Your task to perform on an android device: make emails show in primary in the gmail app Image 0: 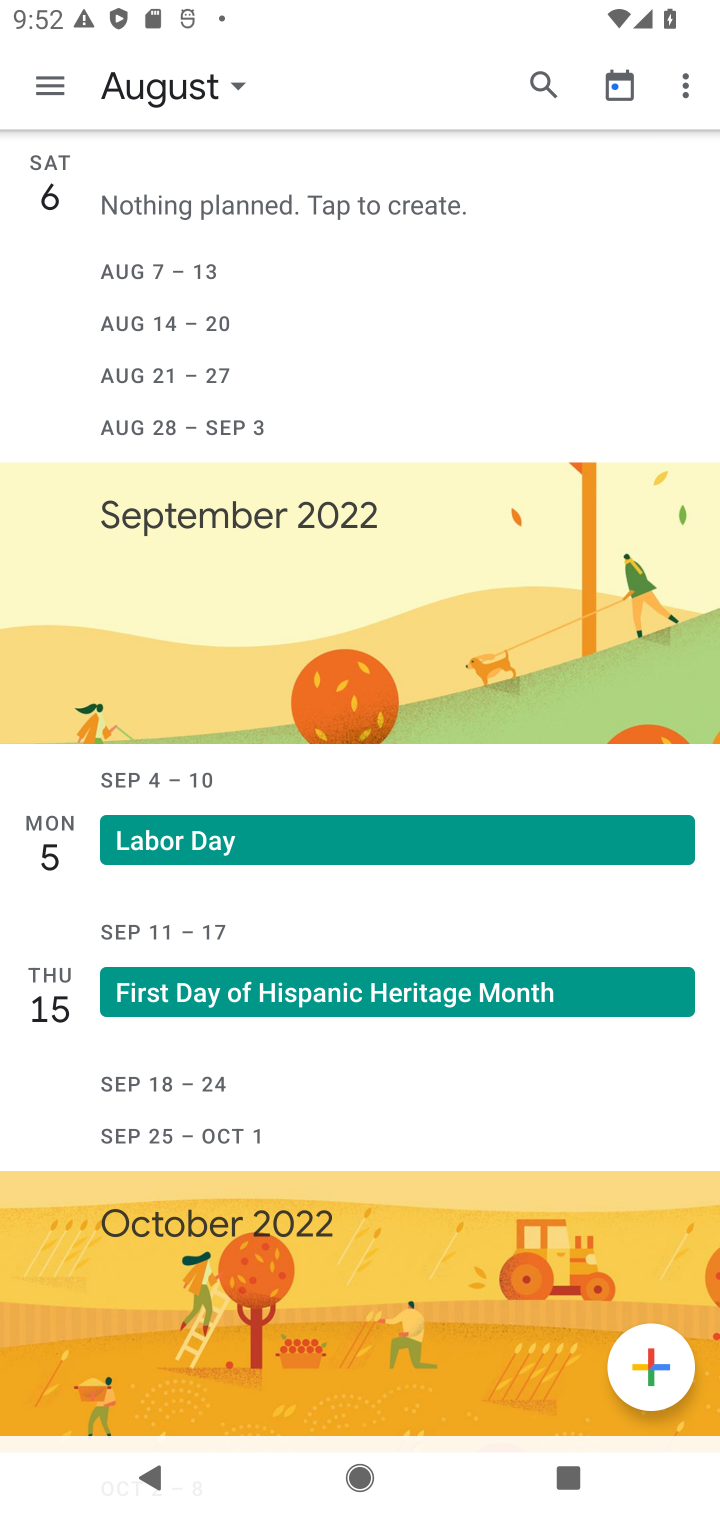
Step 0: drag from (365, 1190) to (403, 259)
Your task to perform on an android device: make emails show in primary in the gmail app Image 1: 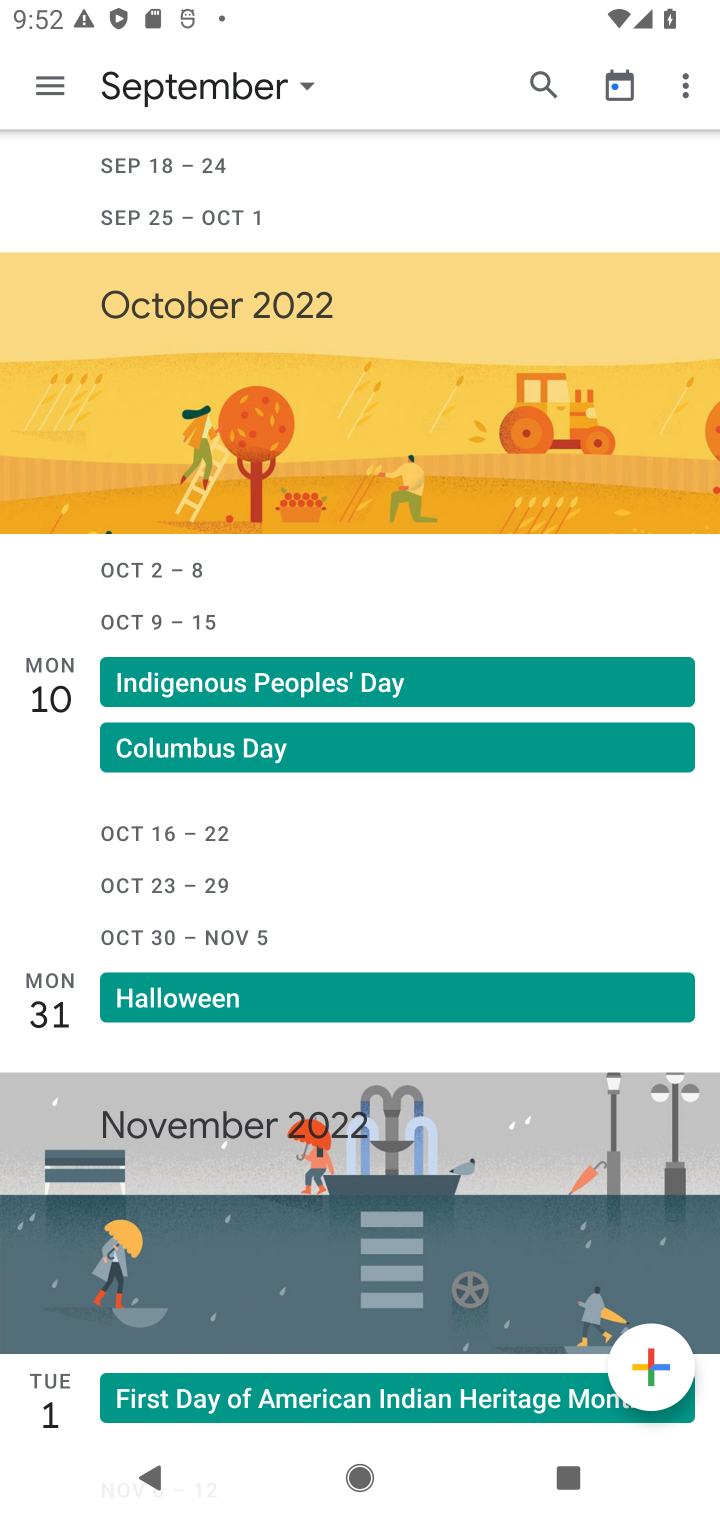
Step 1: press home button
Your task to perform on an android device: make emails show in primary in the gmail app Image 2: 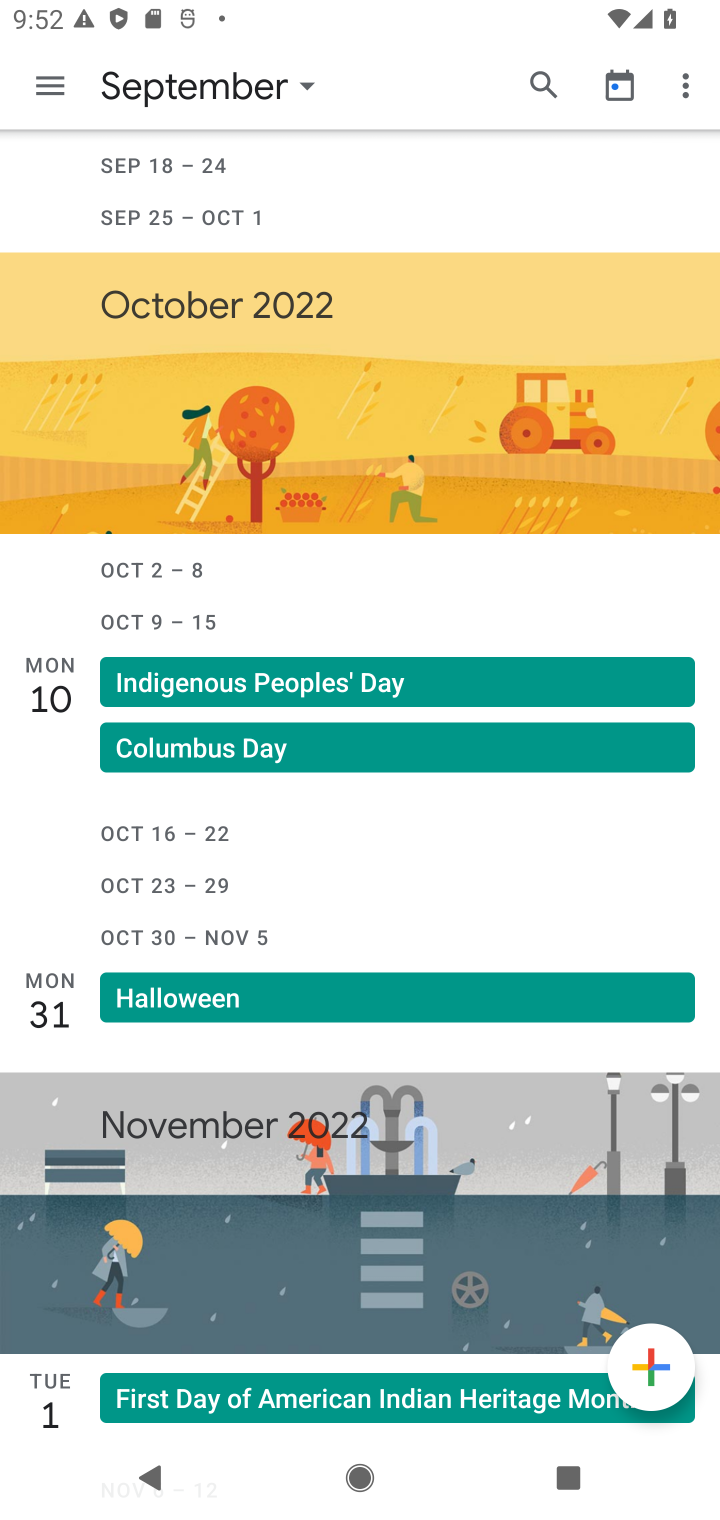
Step 2: drag from (269, 1185) to (443, 155)
Your task to perform on an android device: make emails show in primary in the gmail app Image 3: 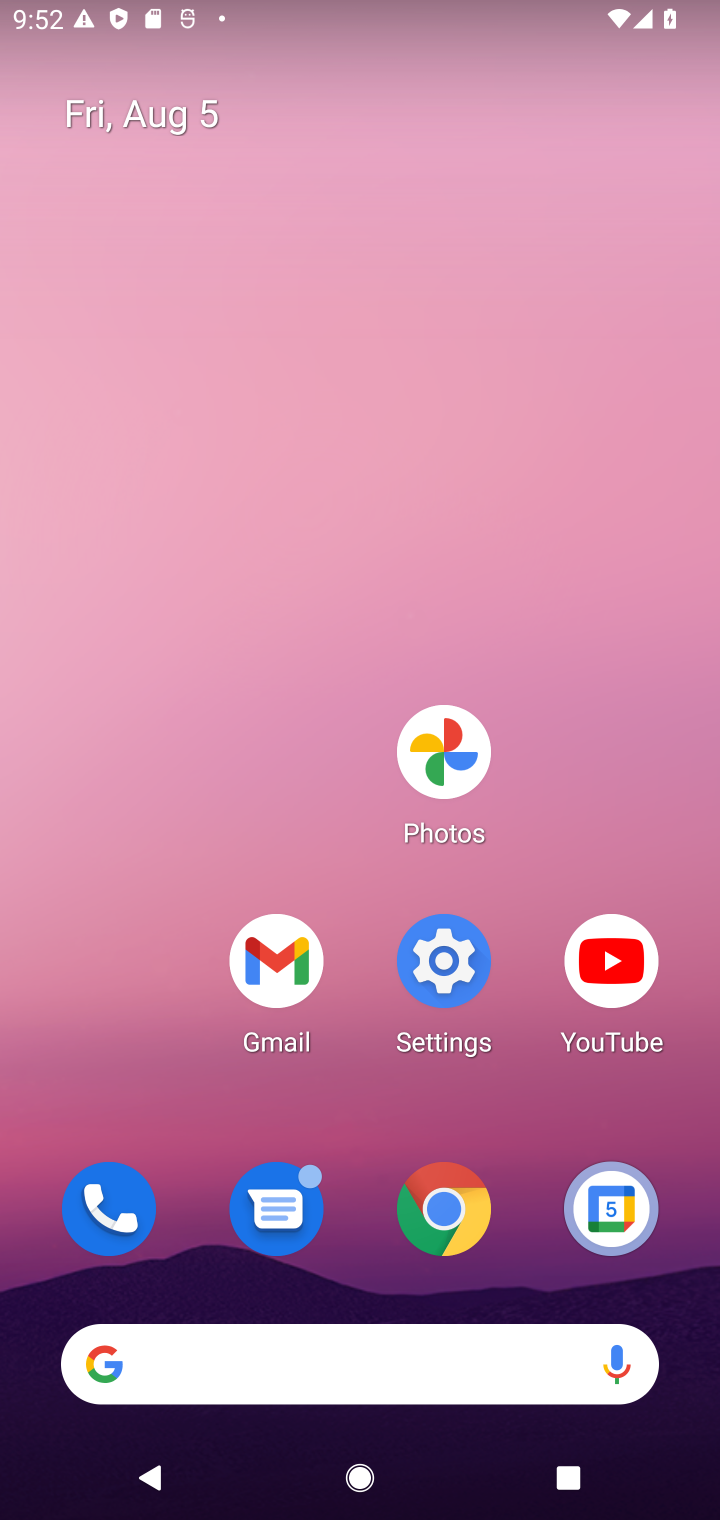
Step 3: drag from (377, 1086) to (372, 284)
Your task to perform on an android device: make emails show in primary in the gmail app Image 4: 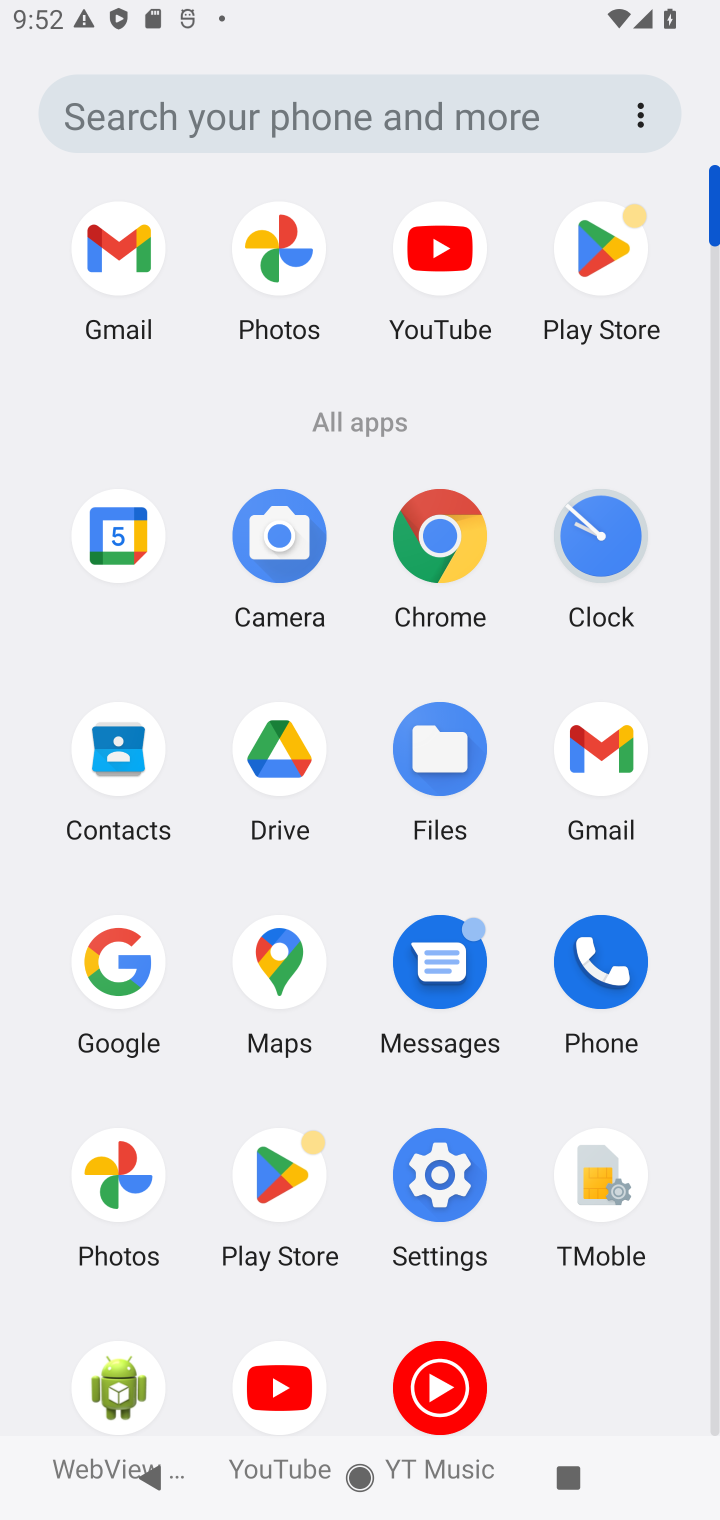
Step 4: click (582, 749)
Your task to perform on an android device: make emails show in primary in the gmail app Image 5: 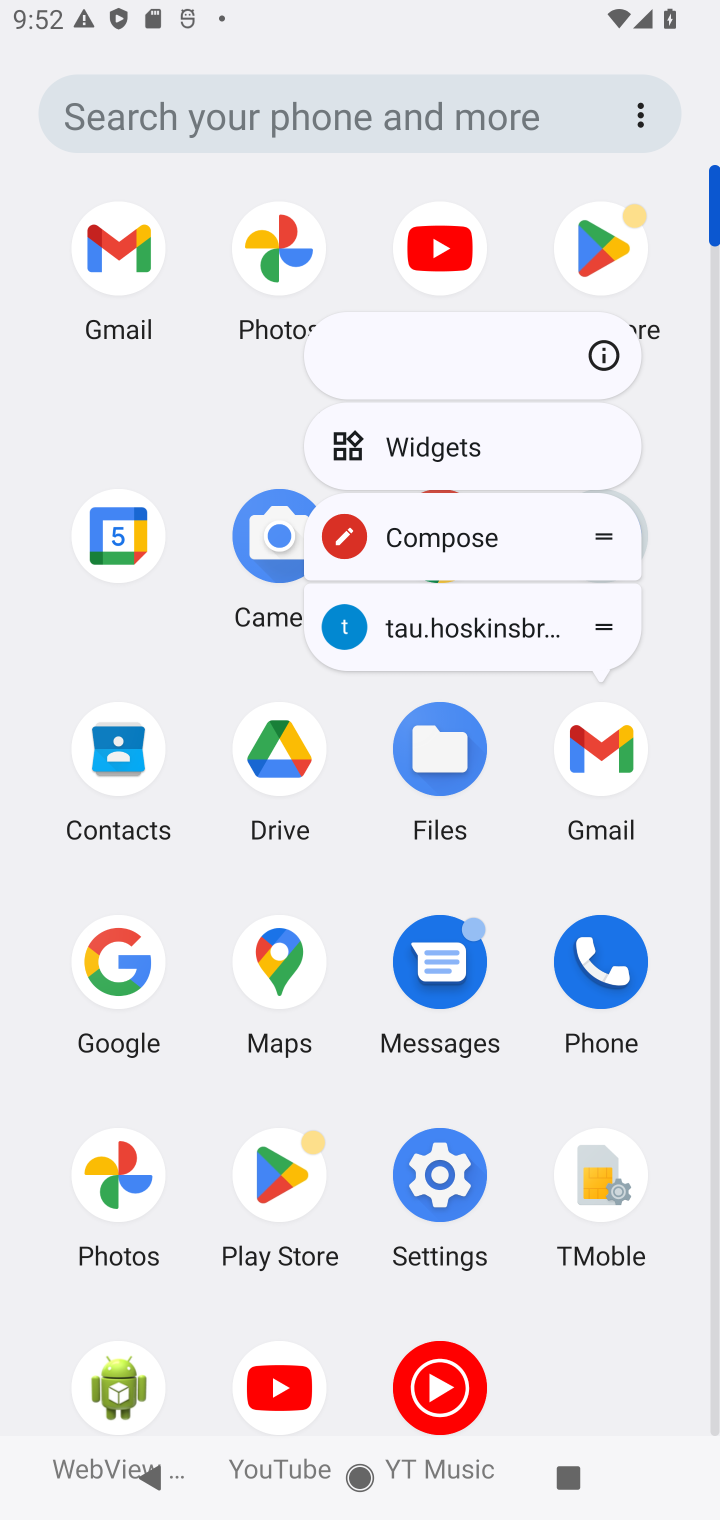
Step 5: click (593, 352)
Your task to perform on an android device: make emails show in primary in the gmail app Image 6: 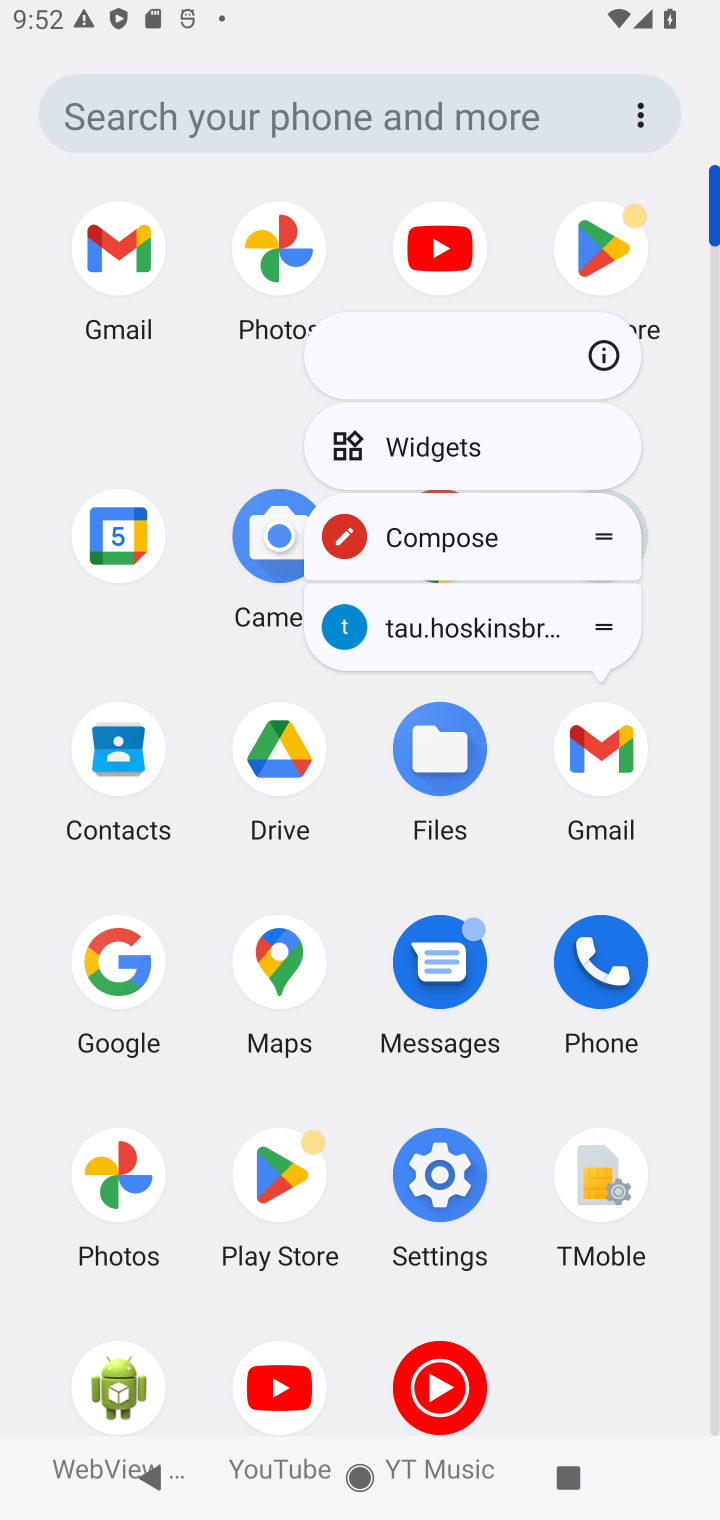
Step 6: click (592, 350)
Your task to perform on an android device: make emails show in primary in the gmail app Image 7: 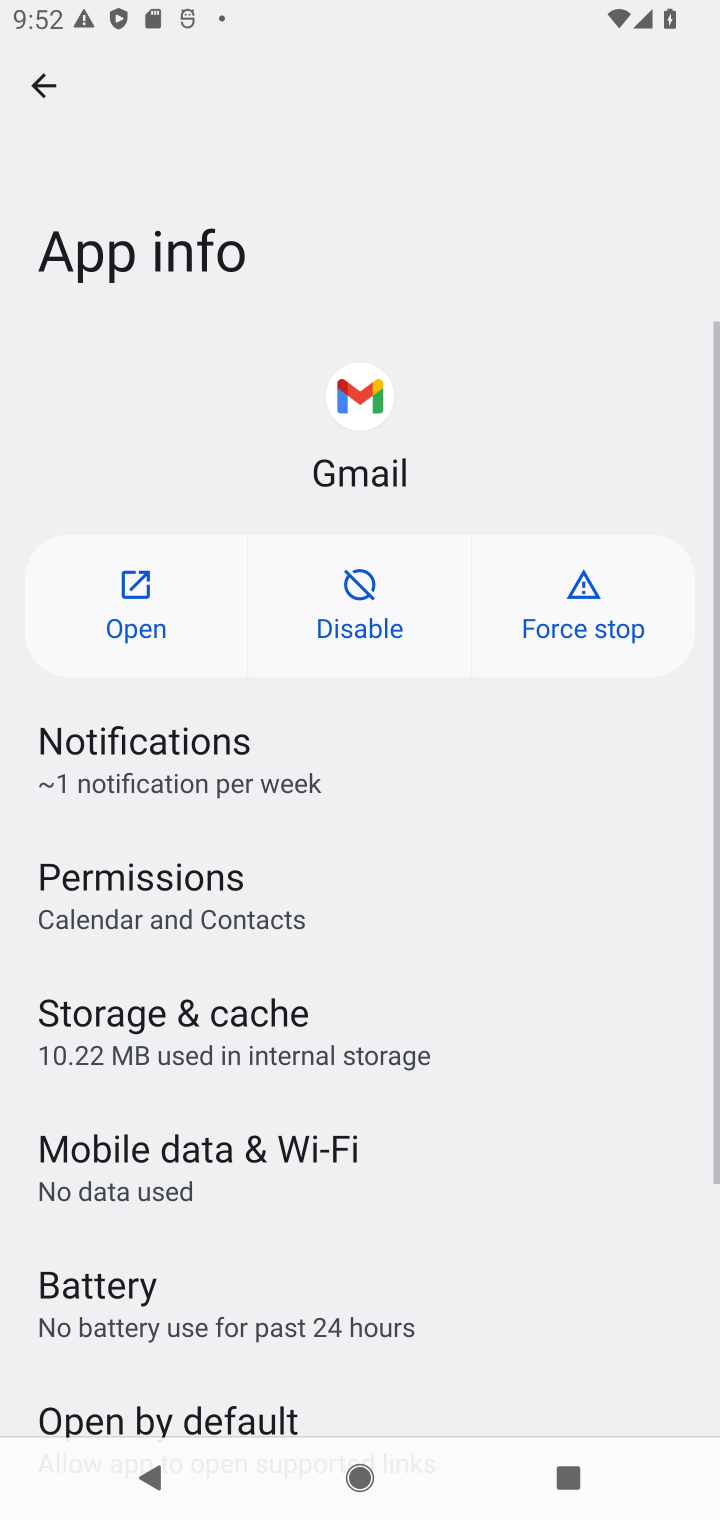
Step 7: click (124, 603)
Your task to perform on an android device: make emails show in primary in the gmail app Image 8: 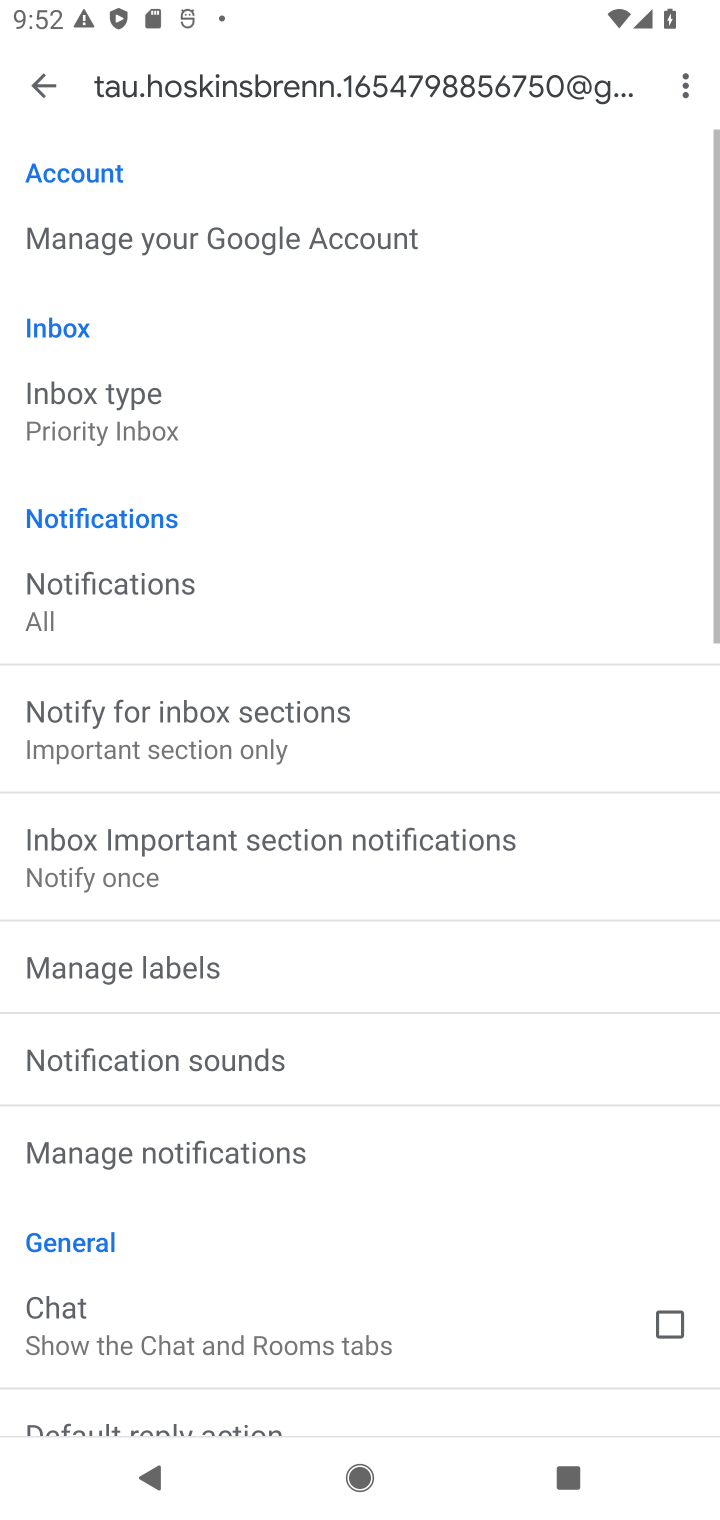
Step 8: drag from (332, 1245) to (430, 591)
Your task to perform on an android device: make emails show in primary in the gmail app Image 9: 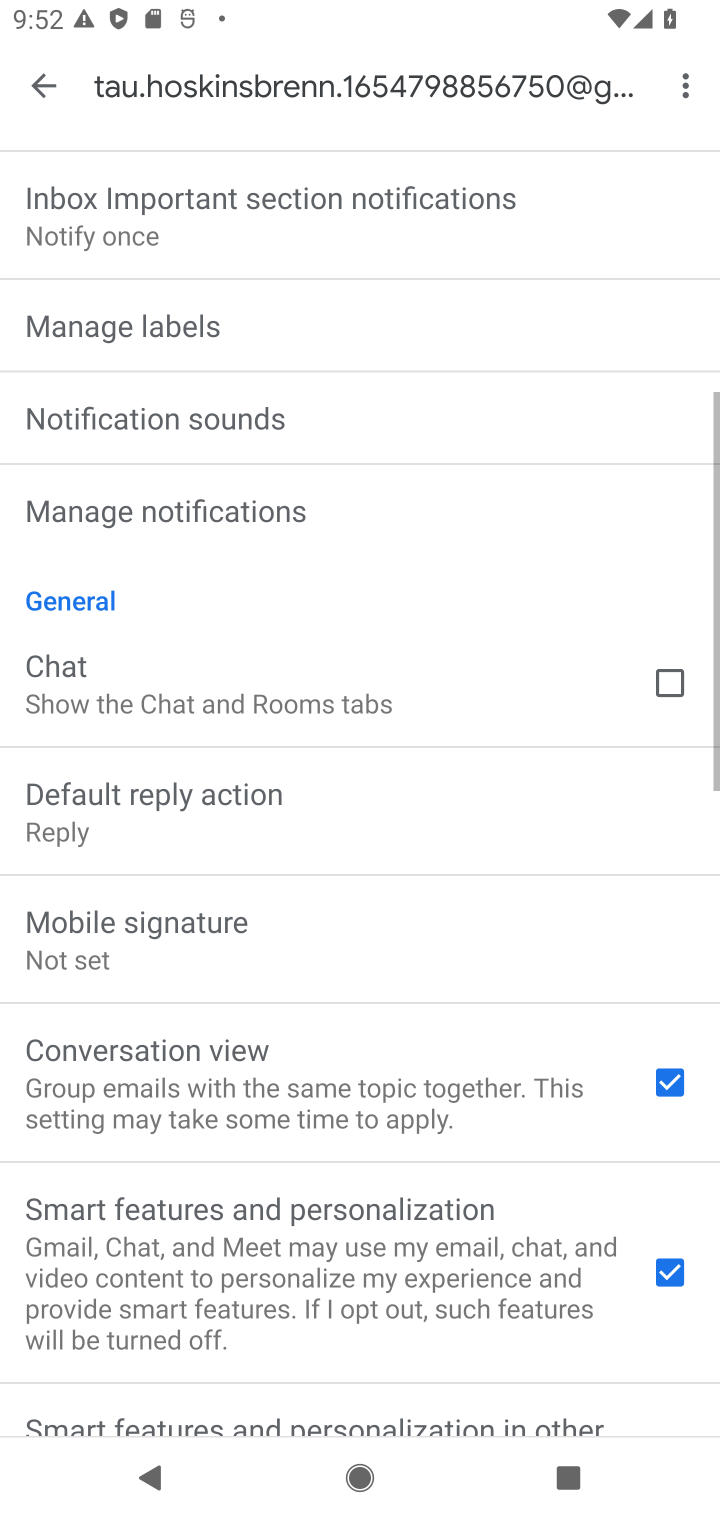
Step 9: drag from (402, 454) to (388, 1435)
Your task to perform on an android device: make emails show in primary in the gmail app Image 10: 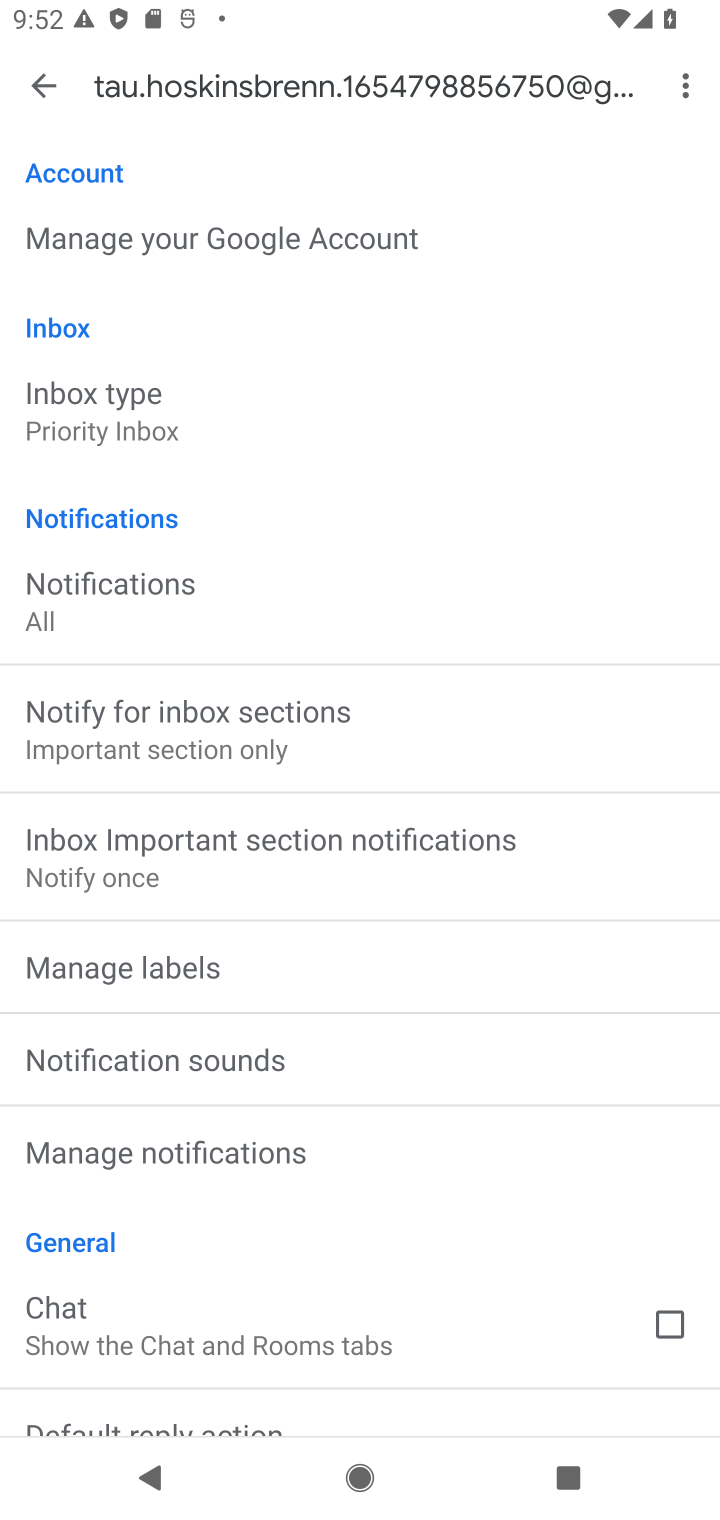
Step 10: drag from (204, 1280) to (537, 1511)
Your task to perform on an android device: make emails show in primary in the gmail app Image 11: 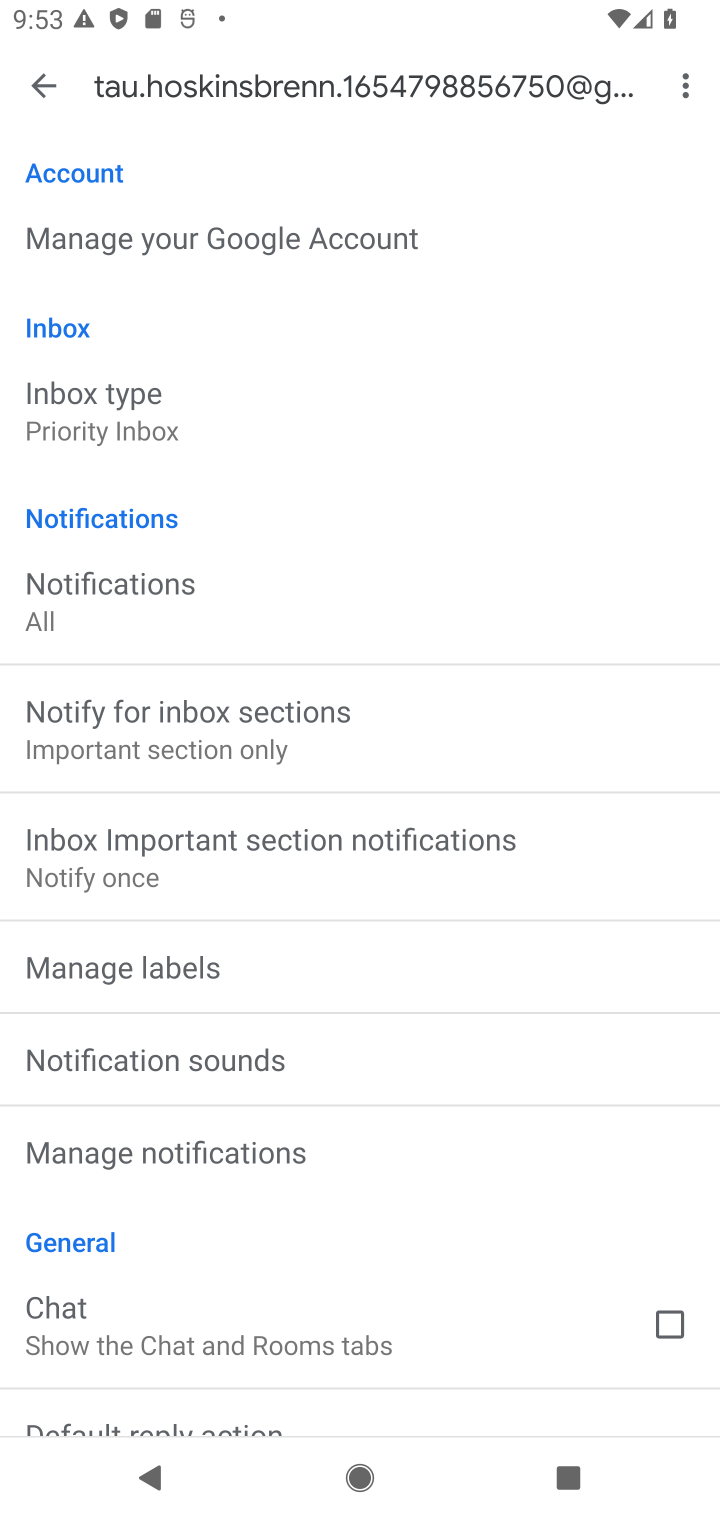
Step 11: click (41, 82)
Your task to perform on an android device: make emails show in primary in the gmail app Image 12: 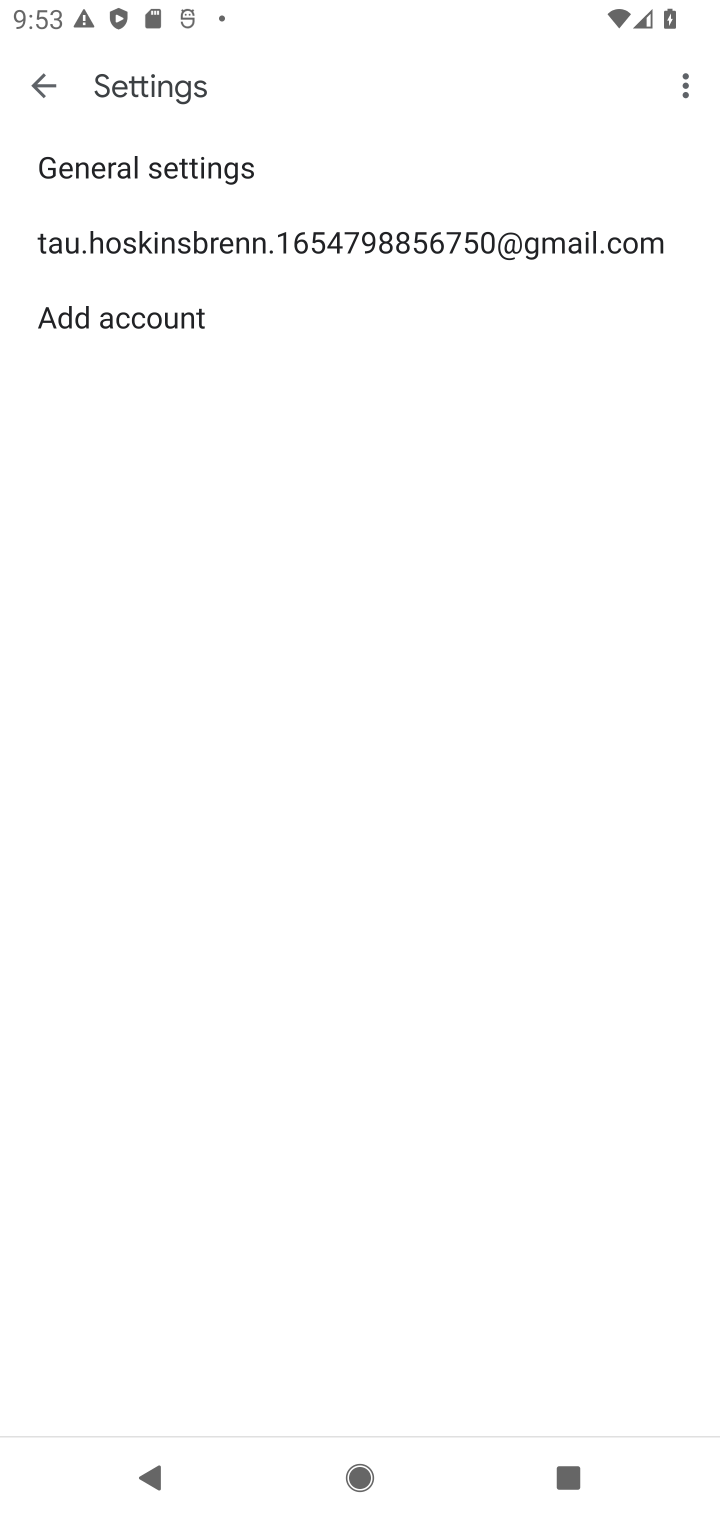
Step 12: click (47, 80)
Your task to perform on an android device: make emails show in primary in the gmail app Image 13: 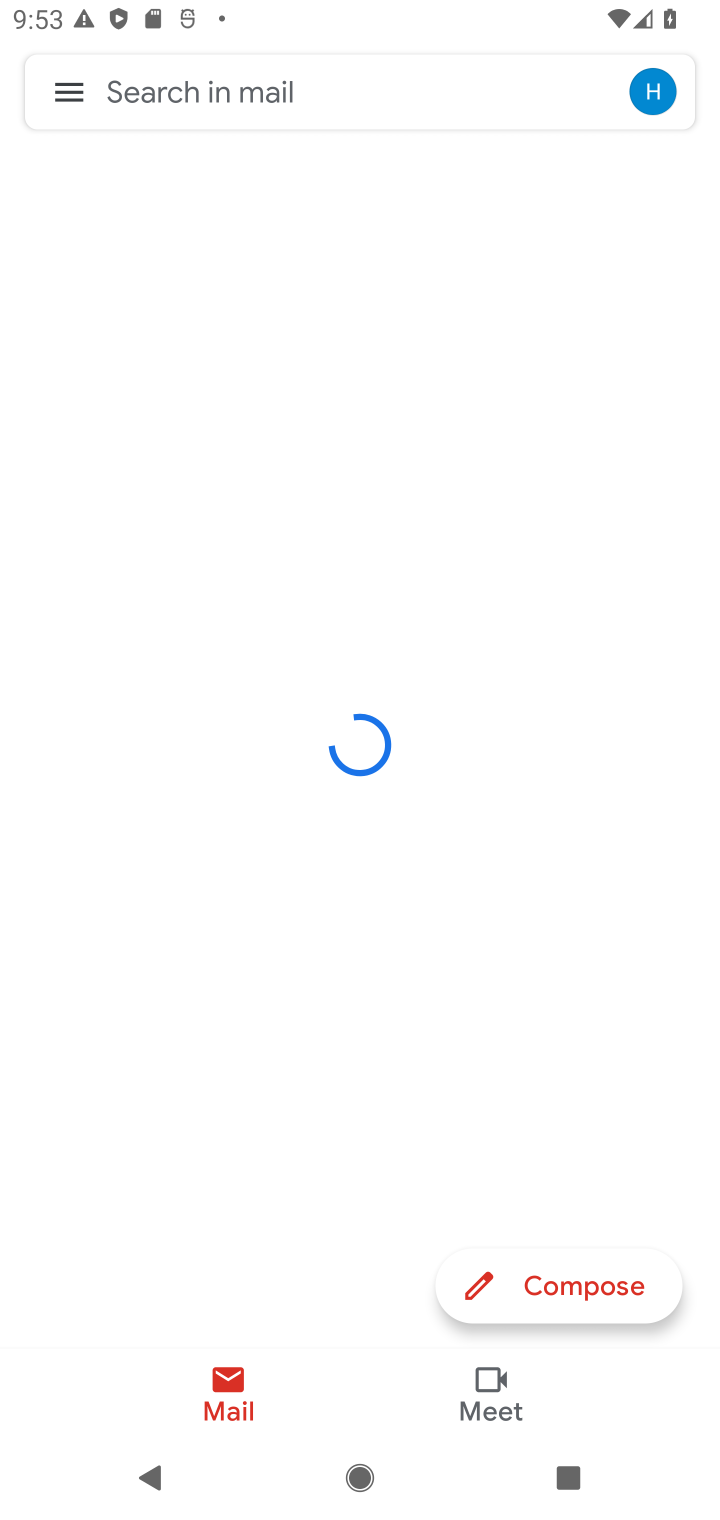
Step 13: click (84, 90)
Your task to perform on an android device: make emails show in primary in the gmail app Image 14: 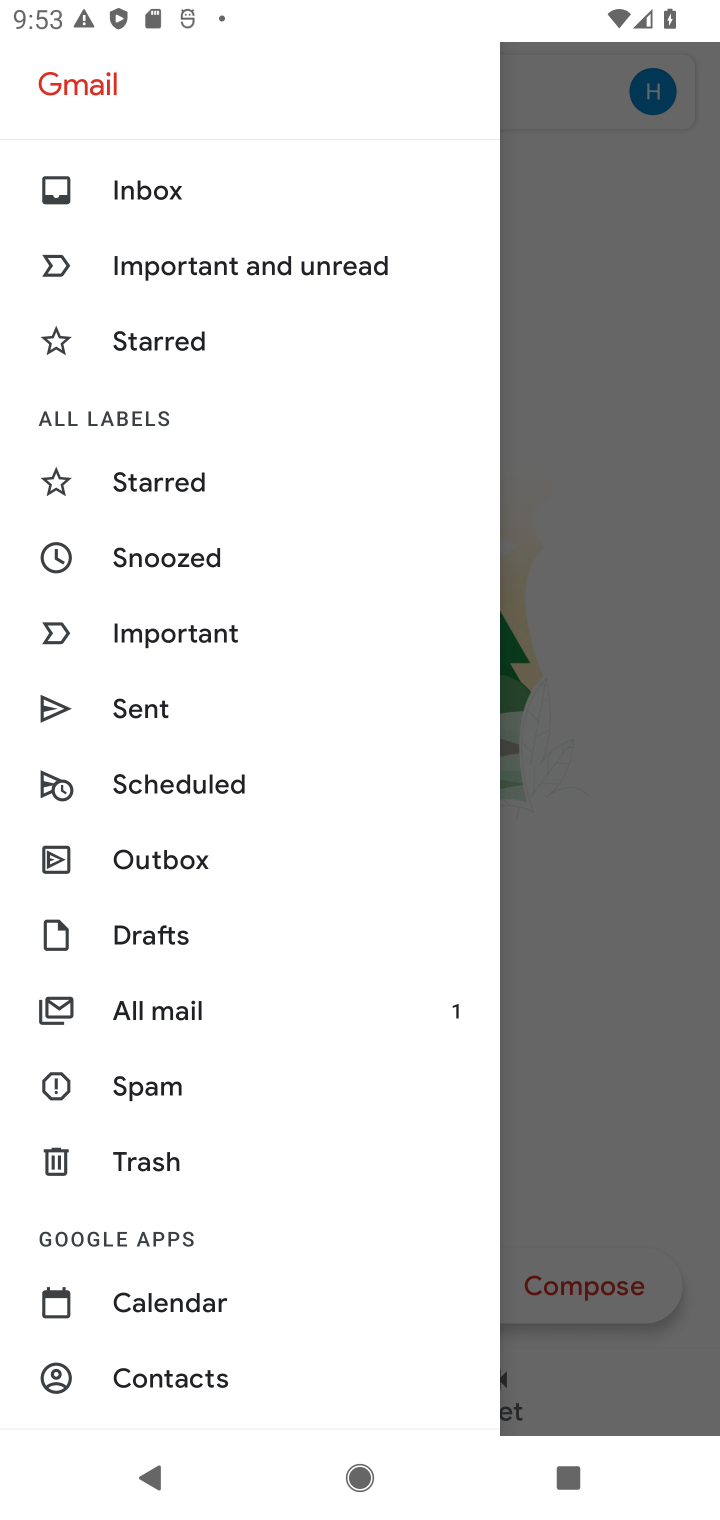
Step 14: click (152, 192)
Your task to perform on an android device: make emails show in primary in the gmail app Image 15: 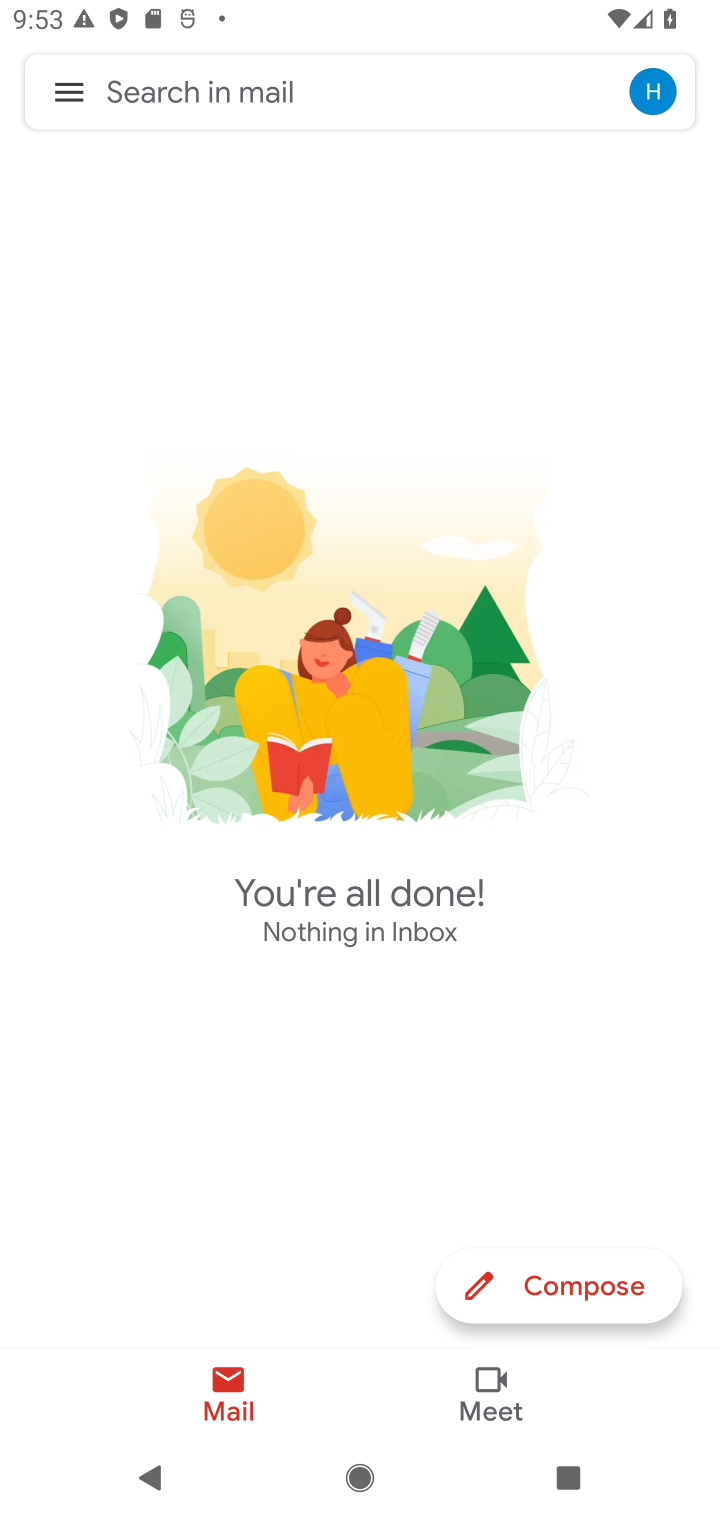
Step 15: drag from (485, 1033) to (477, 544)
Your task to perform on an android device: make emails show in primary in the gmail app Image 16: 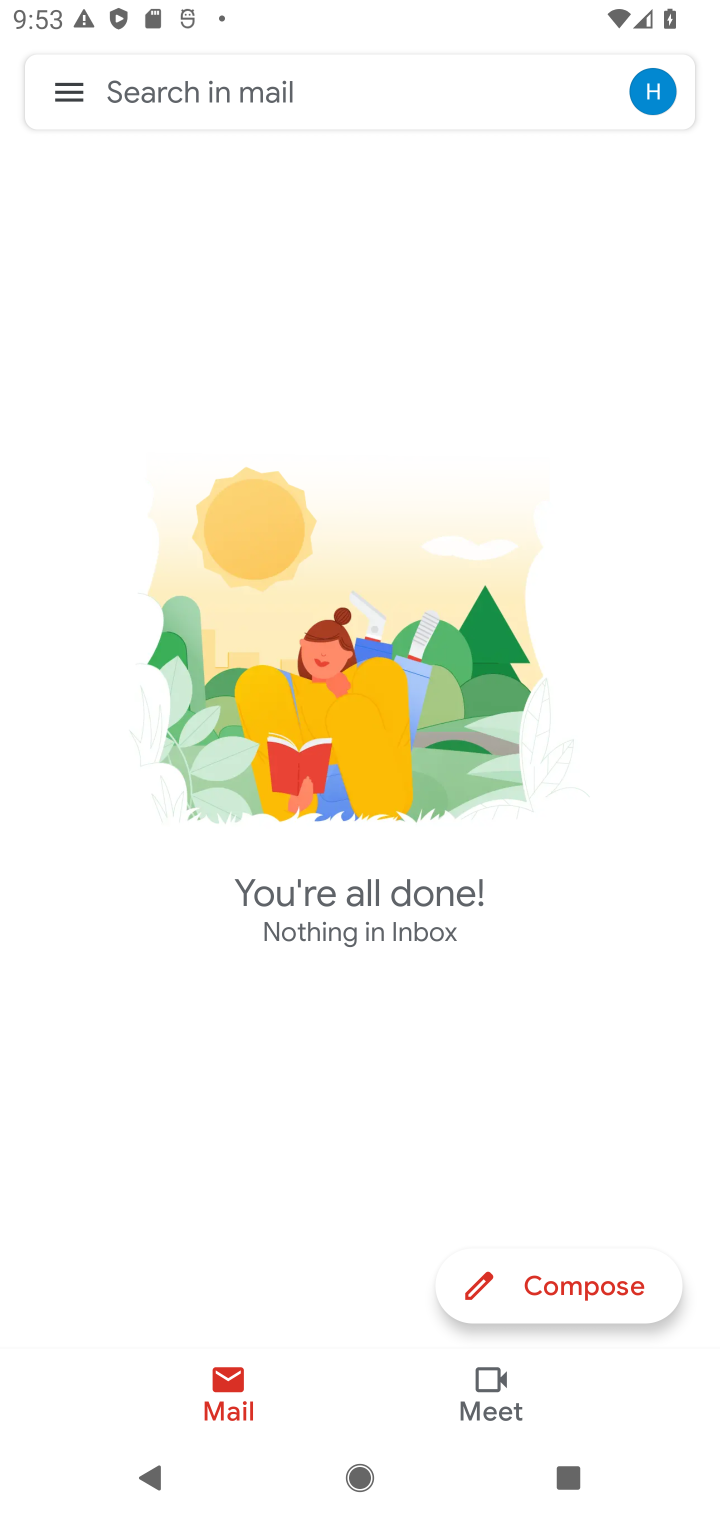
Step 16: drag from (428, 619) to (426, 508)
Your task to perform on an android device: make emails show in primary in the gmail app Image 17: 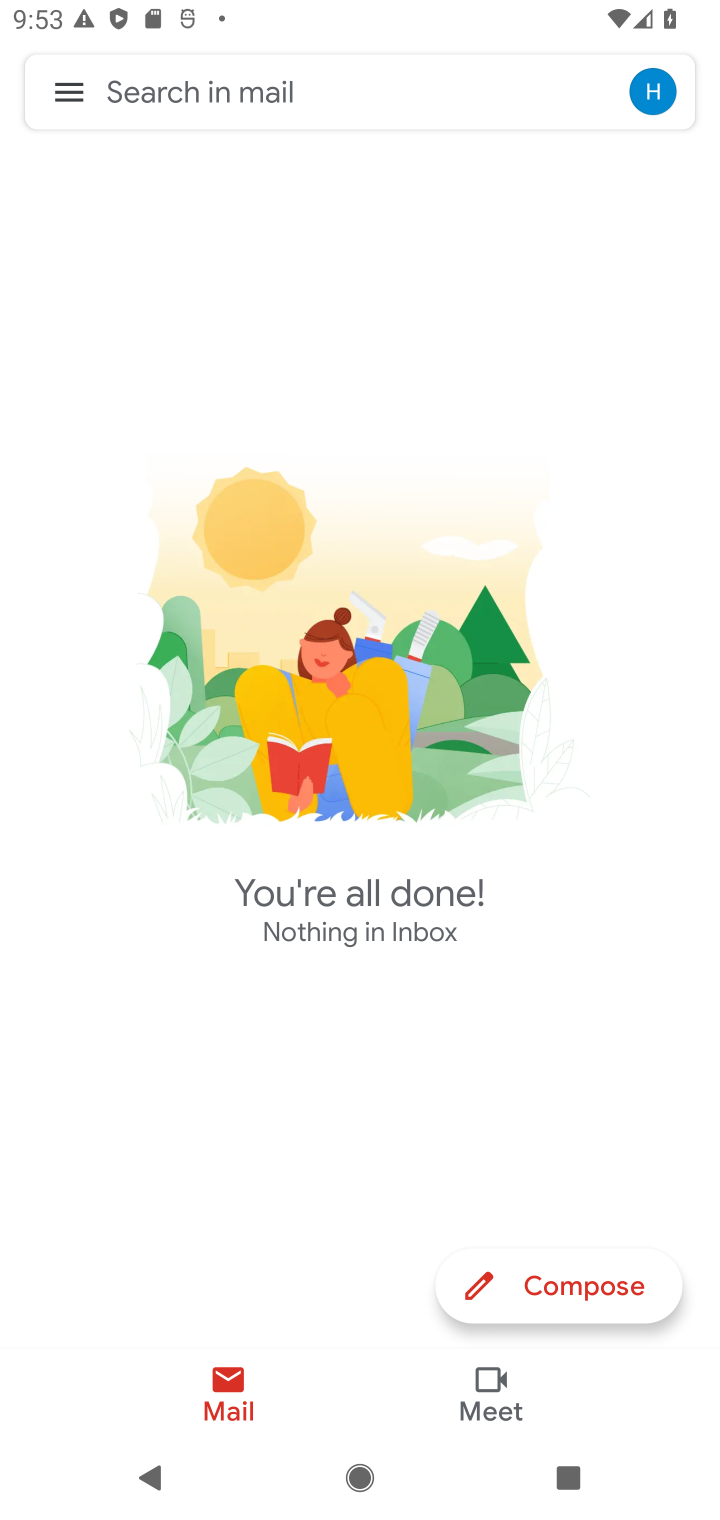
Step 17: drag from (400, 915) to (411, 630)
Your task to perform on an android device: make emails show in primary in the gmail app Image 18: 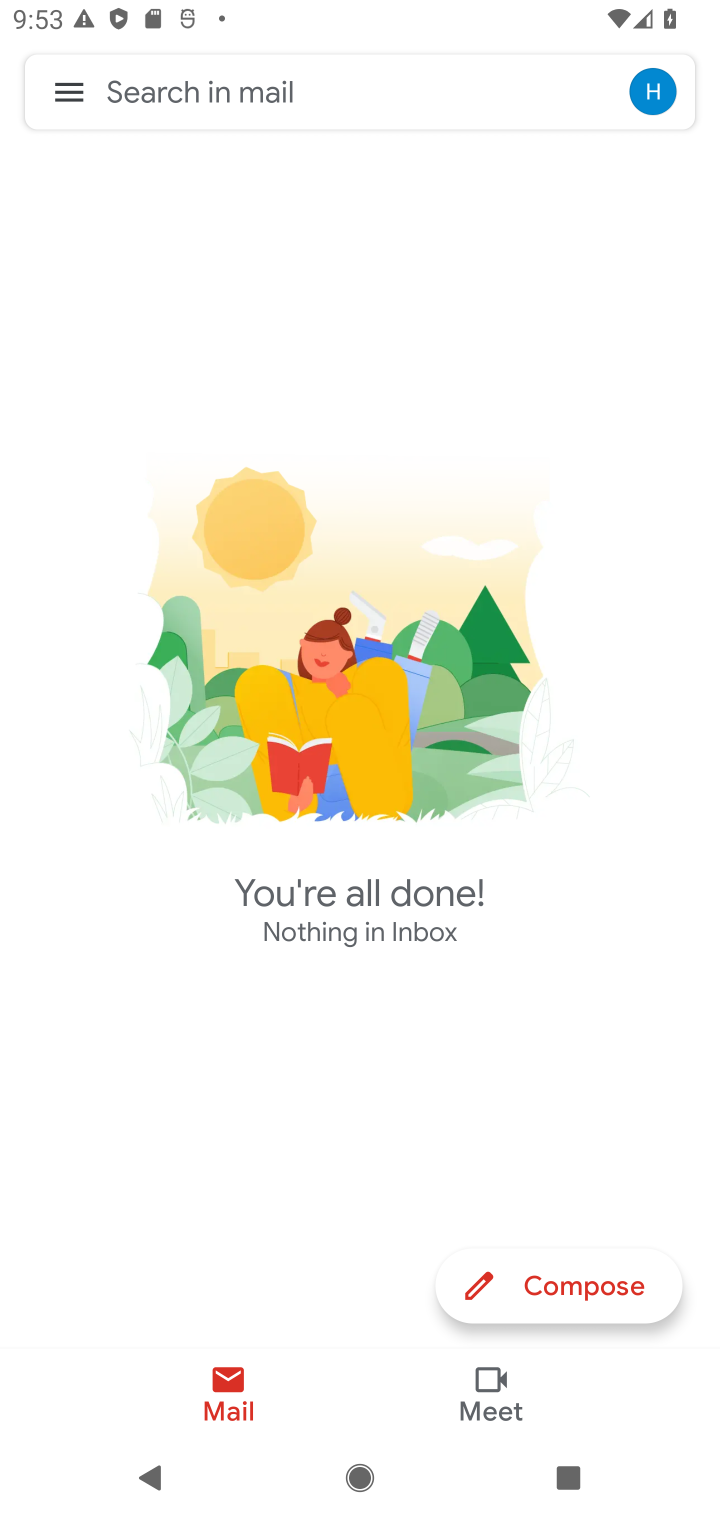
Step 18: click (382, 1126)
Your task to perform on an android device: make emails show in primary in the gmail app Image 19: 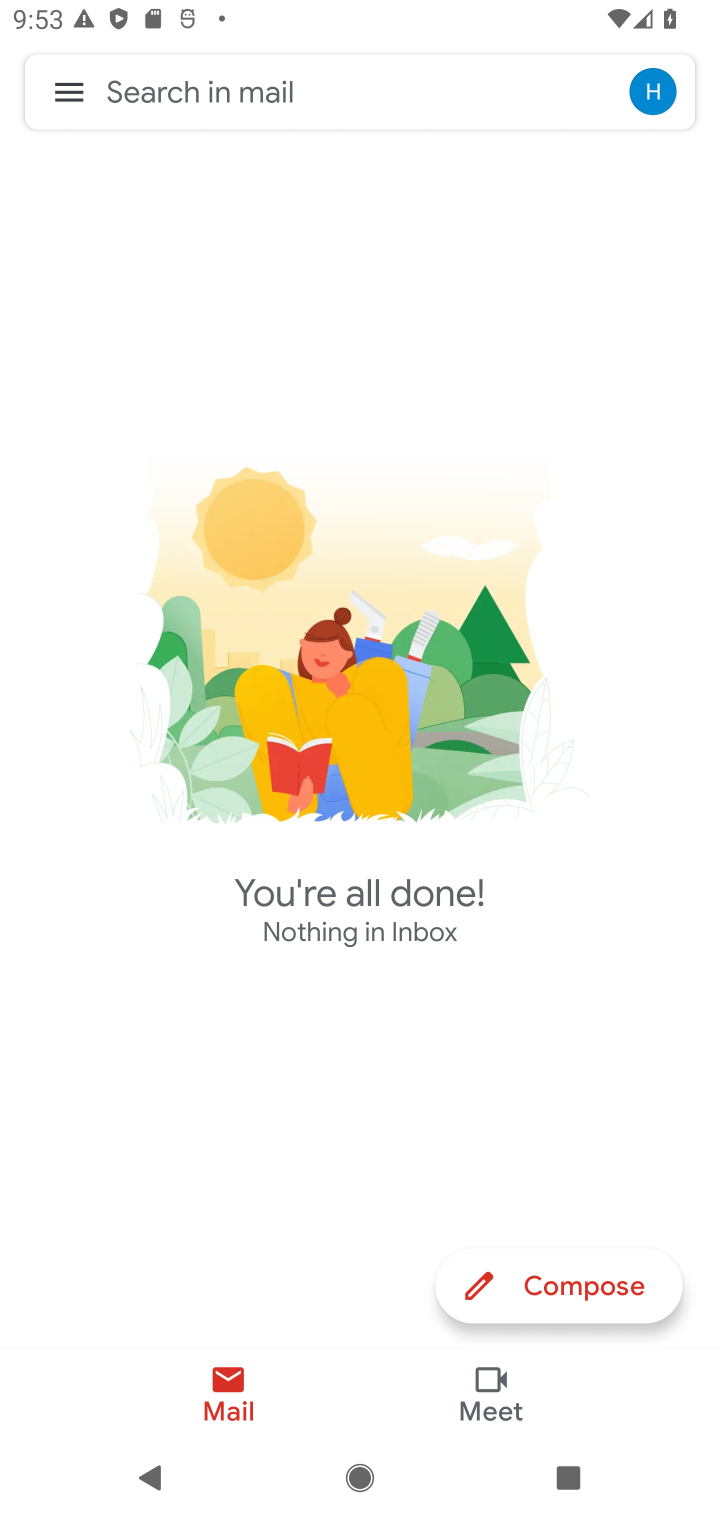
Step 19: click (489, 484)
Your task to perform on an android device: make emails show in primary in the gmail app Image 20: 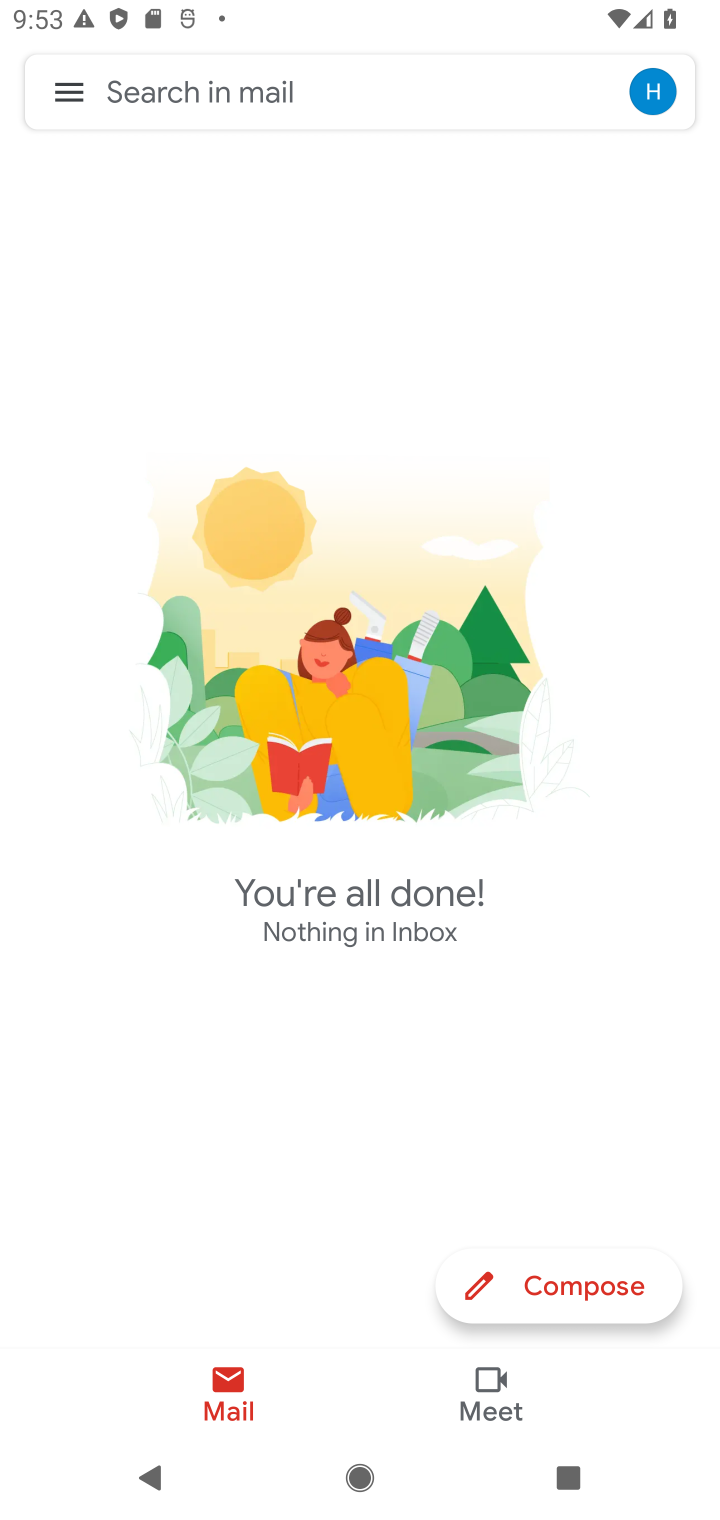
Step 20: drag from (585, 856) to (531, 483)
Your task to perform on an android device: make emails show in primary in the gmail app Image 21: 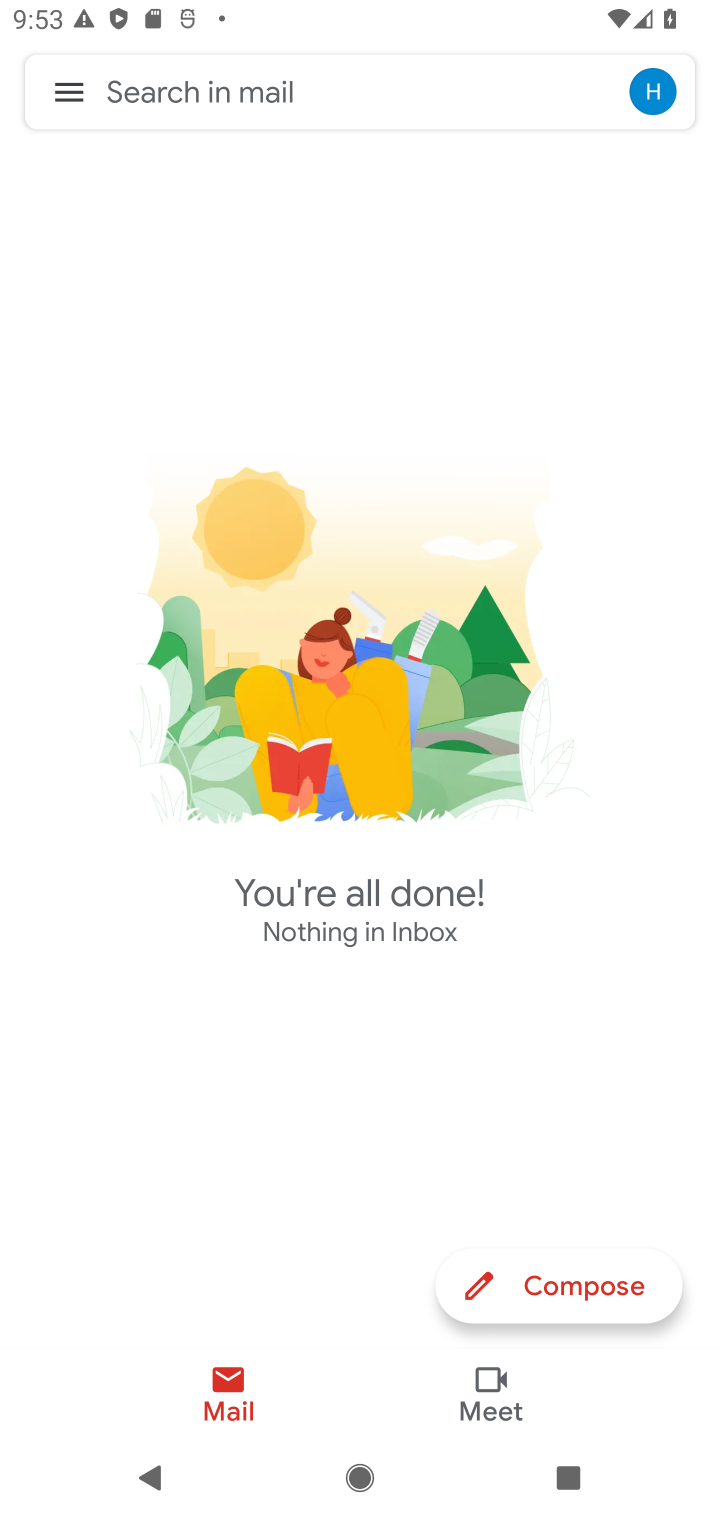
Step 21: click (468, 943)
Your task to perform on an android device: make emails show in primary in the gmail app Image 22: 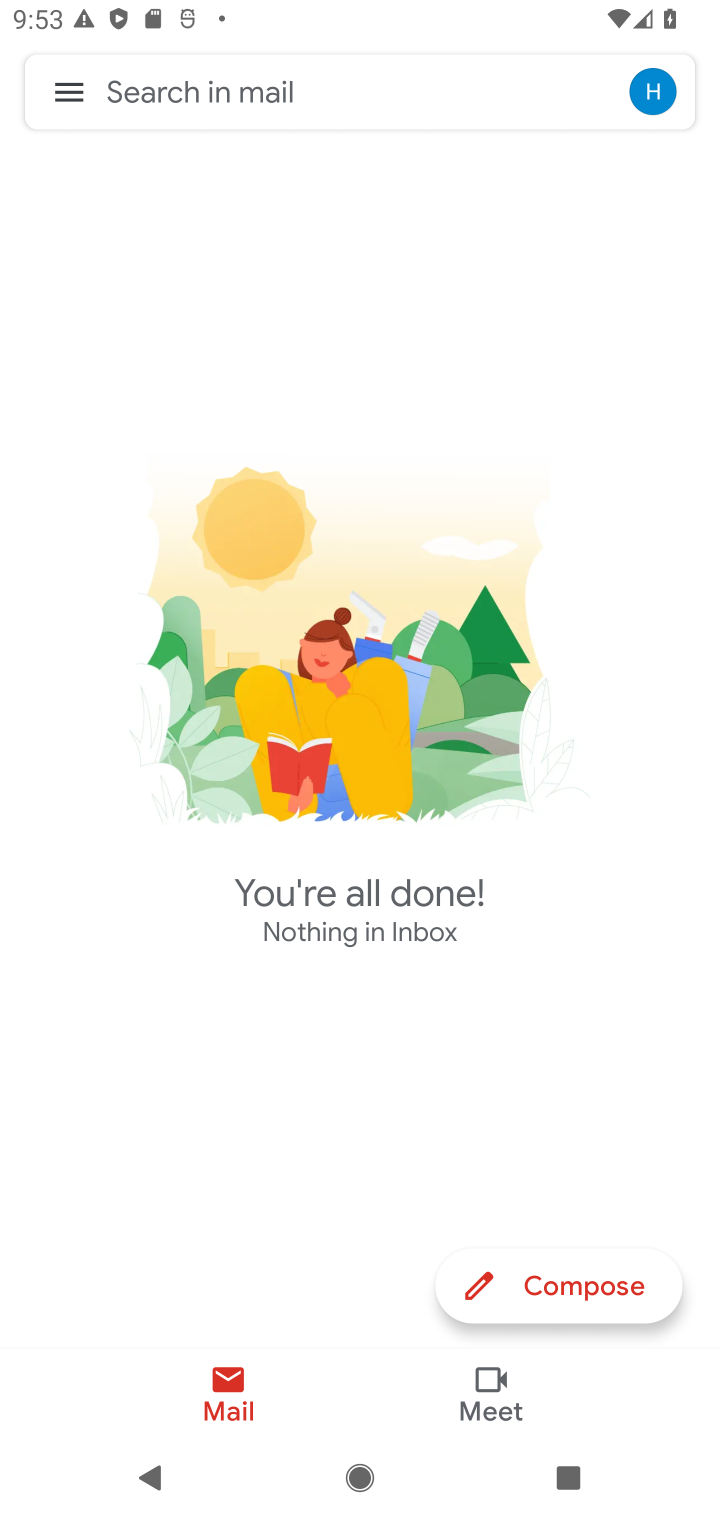
Step 22: drag from (486, 941) to (456, 559)
Your task to perform on an android device: make emails show in primary in the gmail app Image 23: 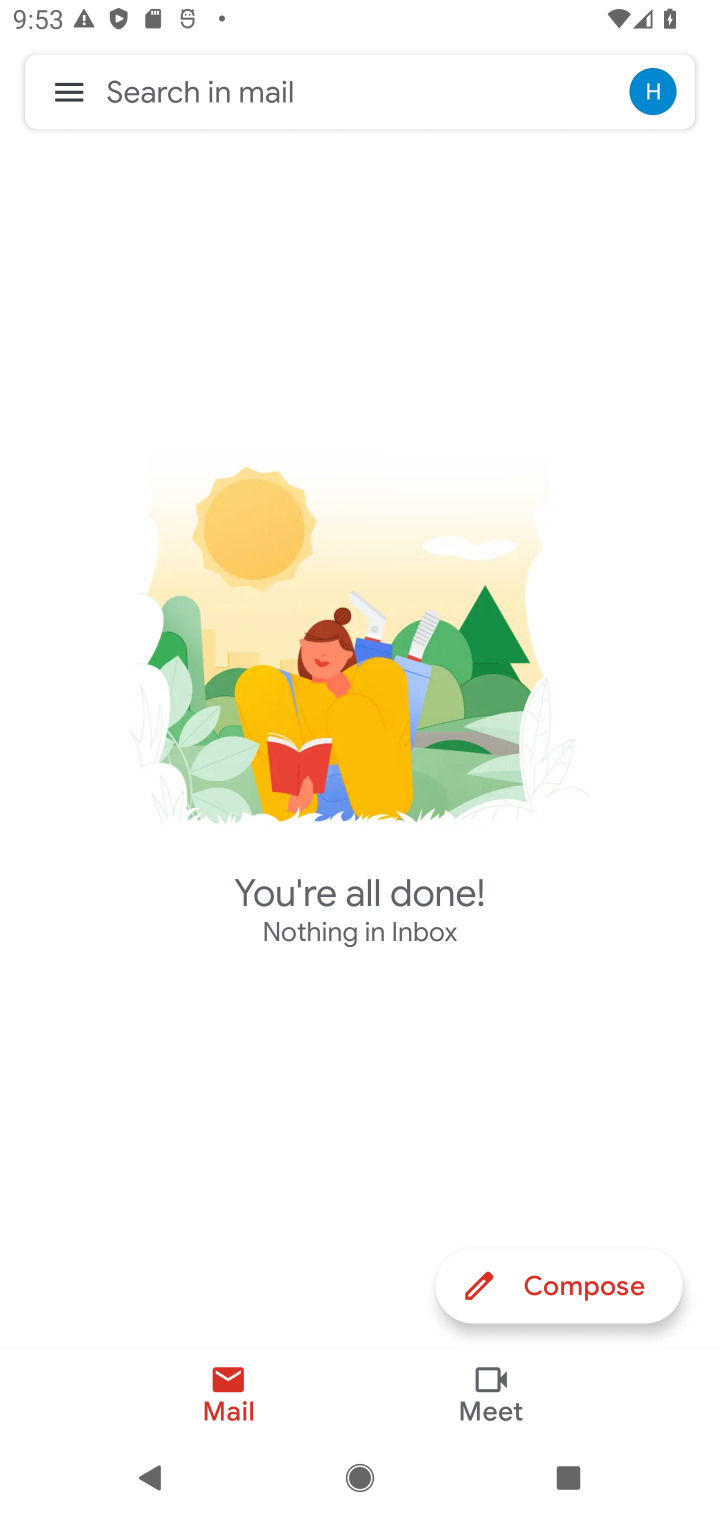
Step 23: click (549, 1047)
Your task to perform on an android device: make emails show in primary in the gmail app Image 24: 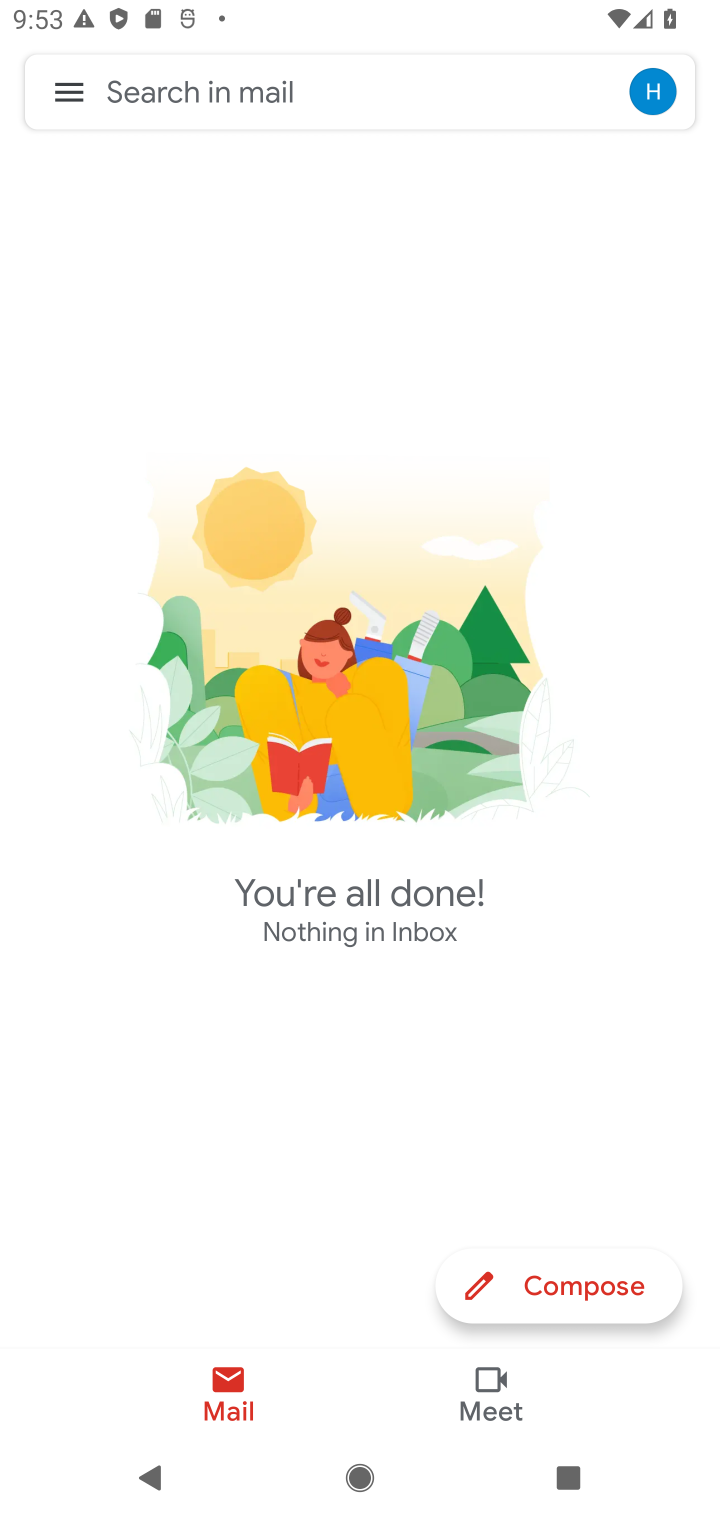
Step 24: click (531, 475)
Your task to perform on an android device: make emails show in primary in the gmail app Image 25: 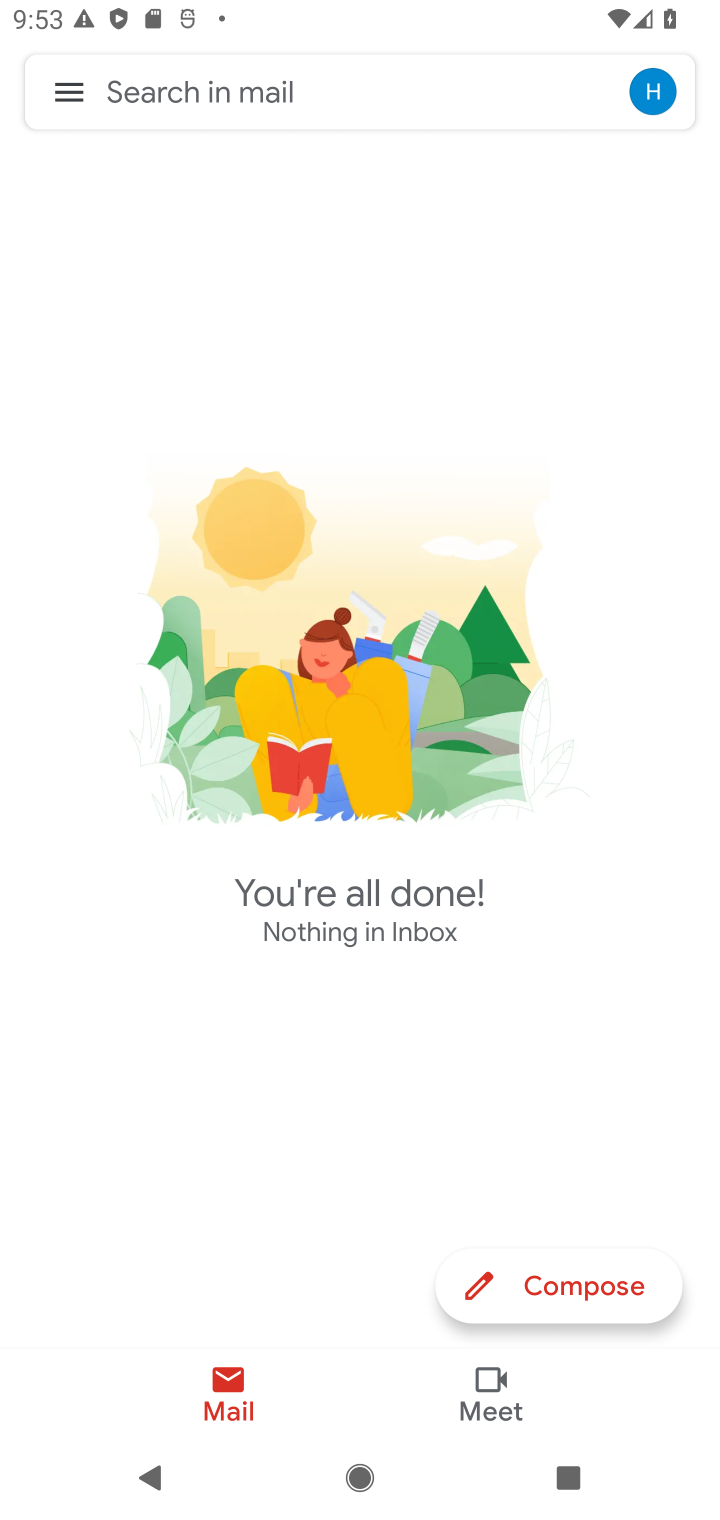
Step 25: click (477, 415)
Your task to perform on an android device: make emails show in primary in the gmail app Image 26: 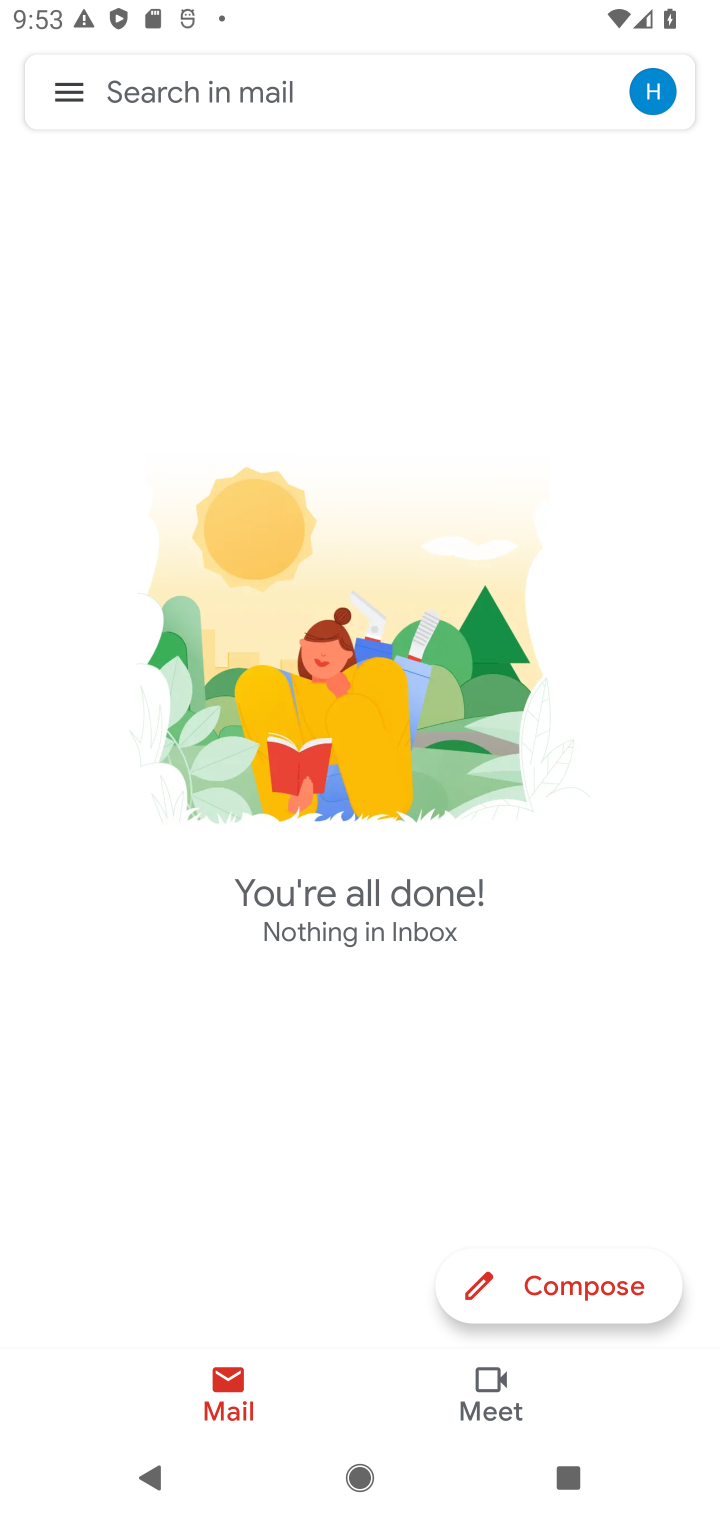
Step 26: drag from (468, 946) to (480, 475)
Your task to perform on an android device: make emails show in primary in the gmail app Image 27: 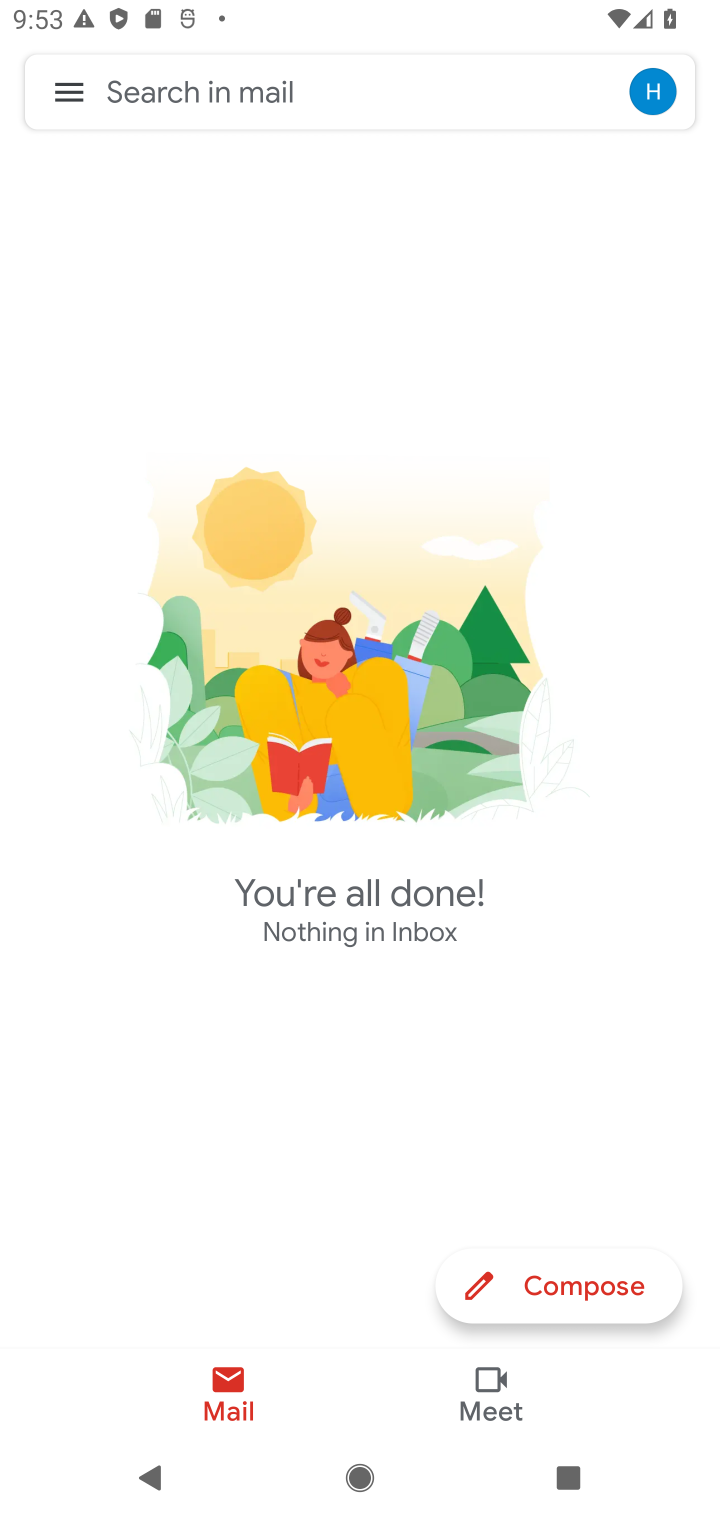
Step 27: drag from (296, 1289) to (360, 670)
Your task to perform on an android device: make emails show in primary in the gmail app Image 28: 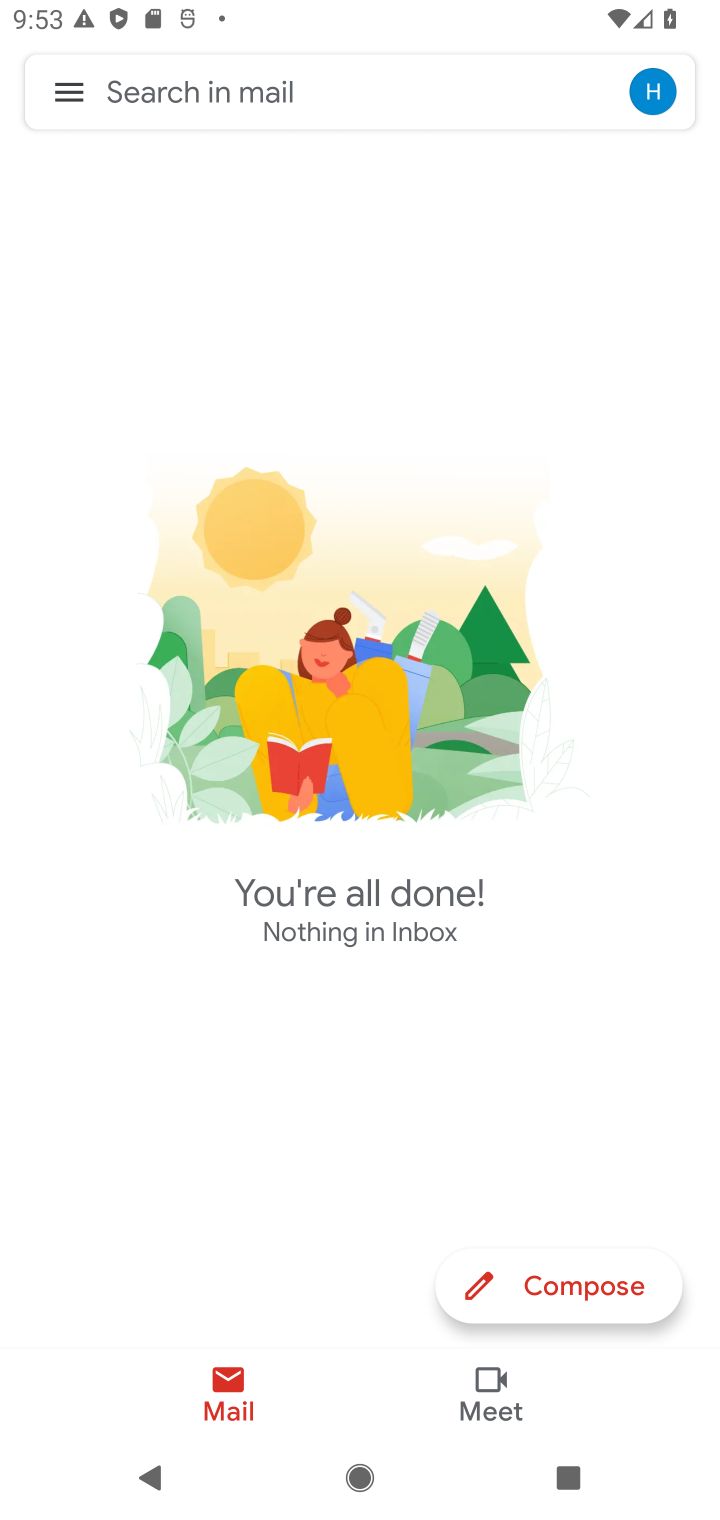
Step 28: drag from (381, 1190) to (388, 471)
Your task to perform on an android device: make emails show in primary in the gmail app Image 29: 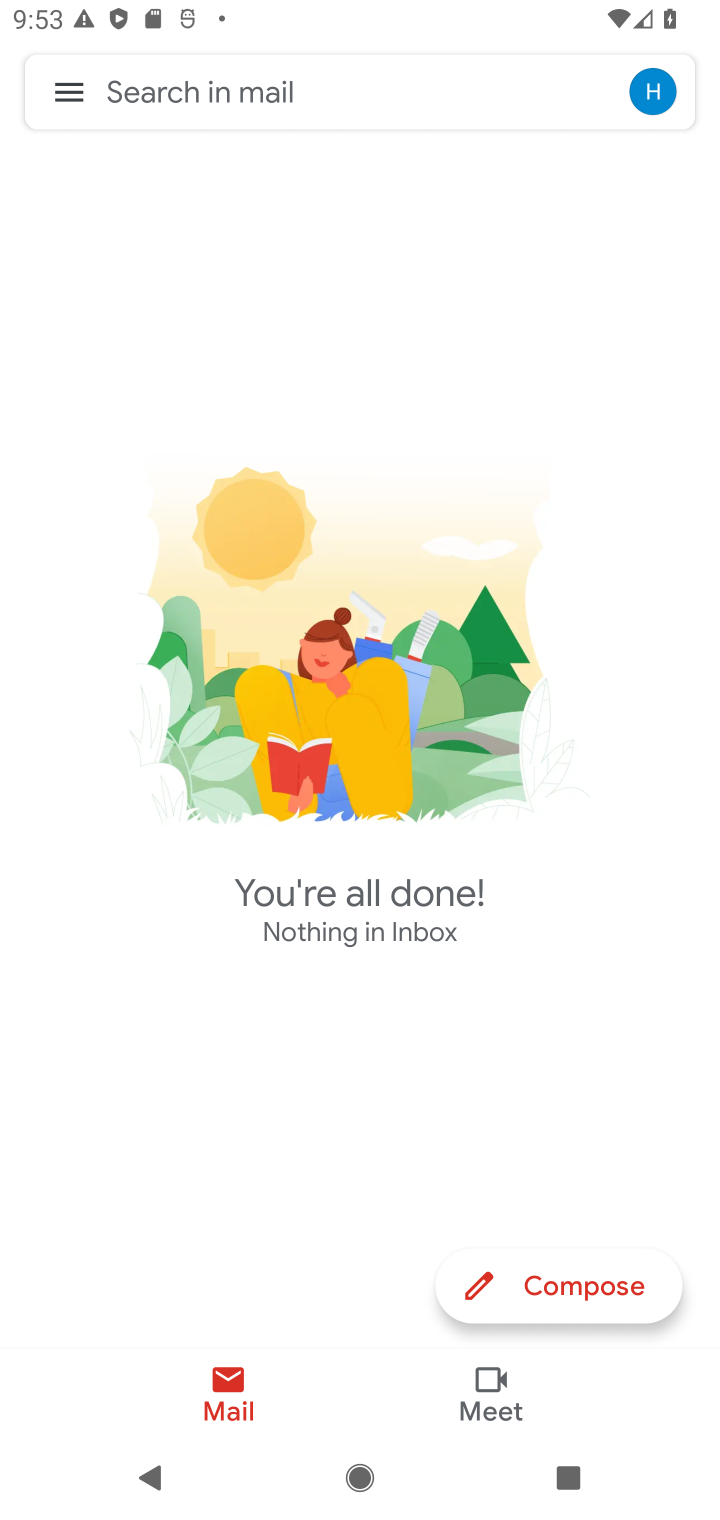
Step 29: drag from (329, 1278) to (390, 579)
Your task to perform on an android device: make emails show in primary in the gmail app Image 30: 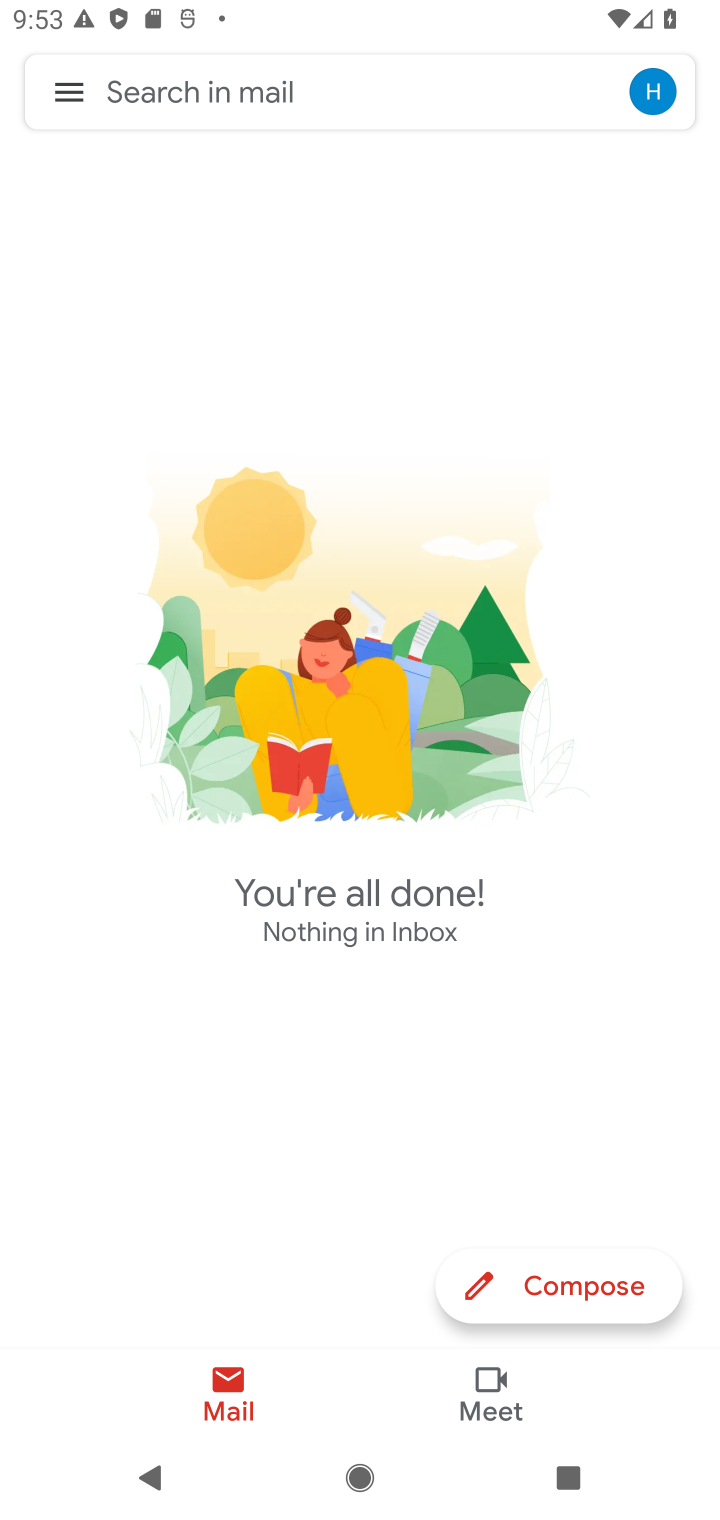
Step 30: drag from (343, 977) to (359, 535)
Your task to perform on an android device: make emails show in primary in the gmail app Image 31: 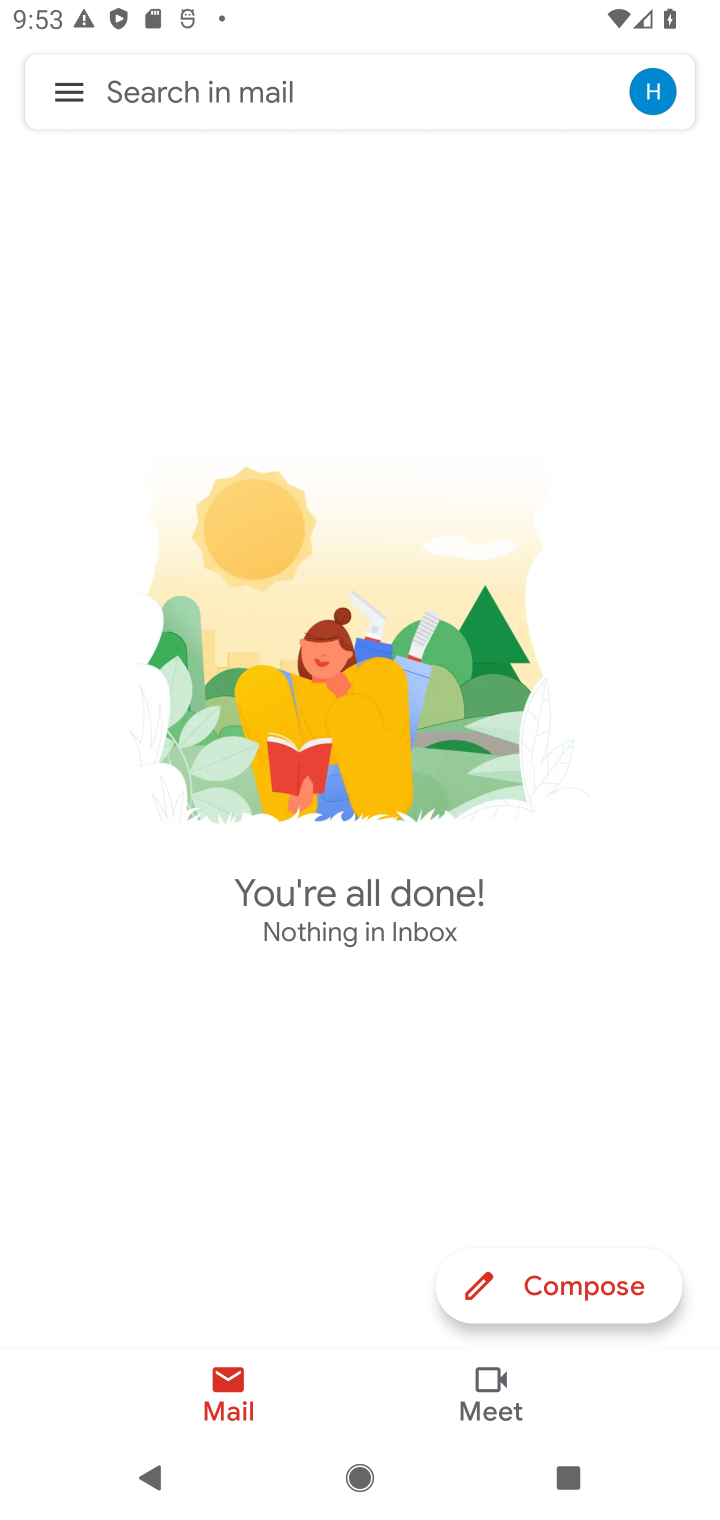
Step 31: drag from (321, 1209) to (330, 882)
Your task to perform on an android device: make emails show in primary in the gmail app Image 32: 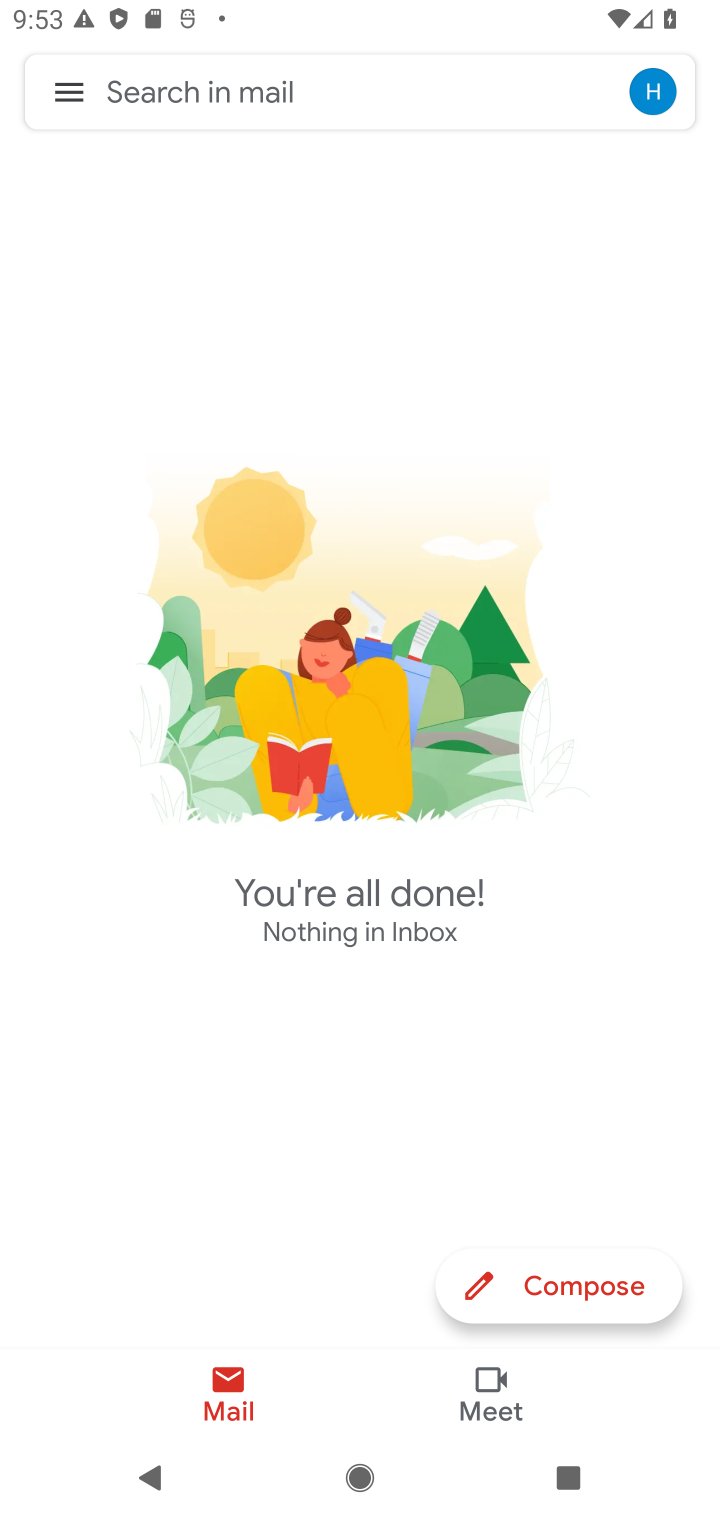
Step 32: click (58, 72)
Your task to perform on an android device: make emails show in primary in the gmail app Image 33: 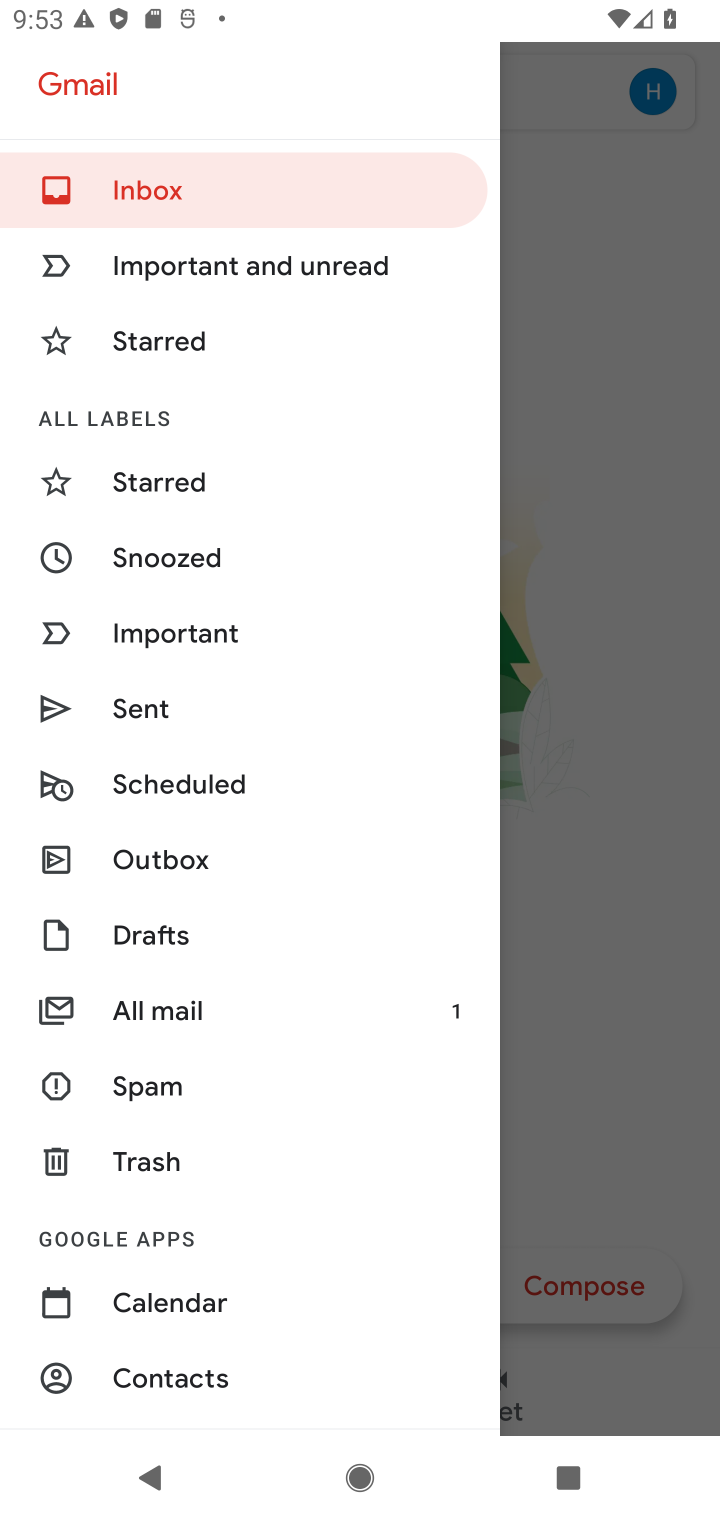
Step 33: drag from (226, 1290) to (245, 385)
Your task to perform on an android device: make emails show in primary in the gmail app Image 34: 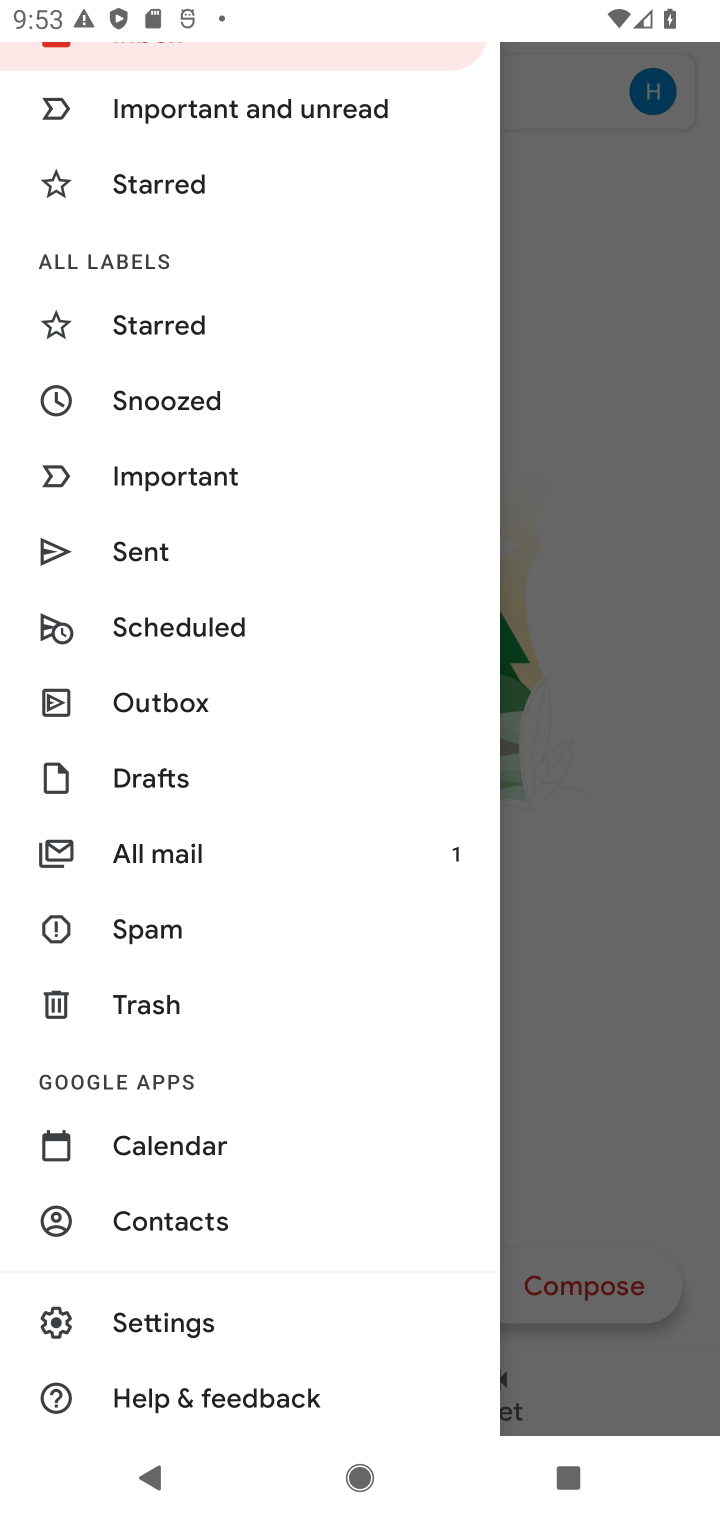
Step 34: drag from (251, 384) to (332, 1519)
Your task to perform on an android device: make emails show in primary in the gmail app Image 35: 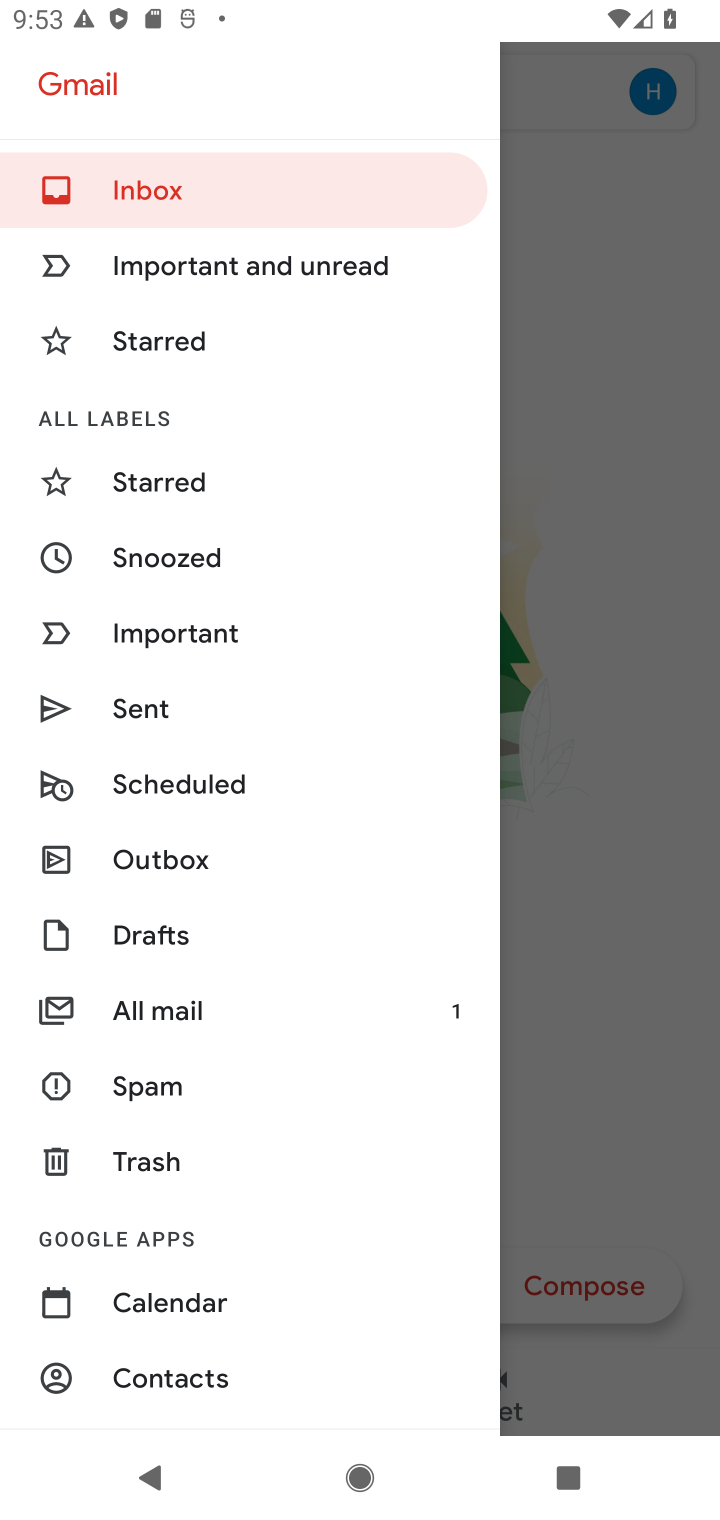
Step 35: click (115, 188)
Your task to perform on an android device: make emails show in primary in the gmail app Image 36: 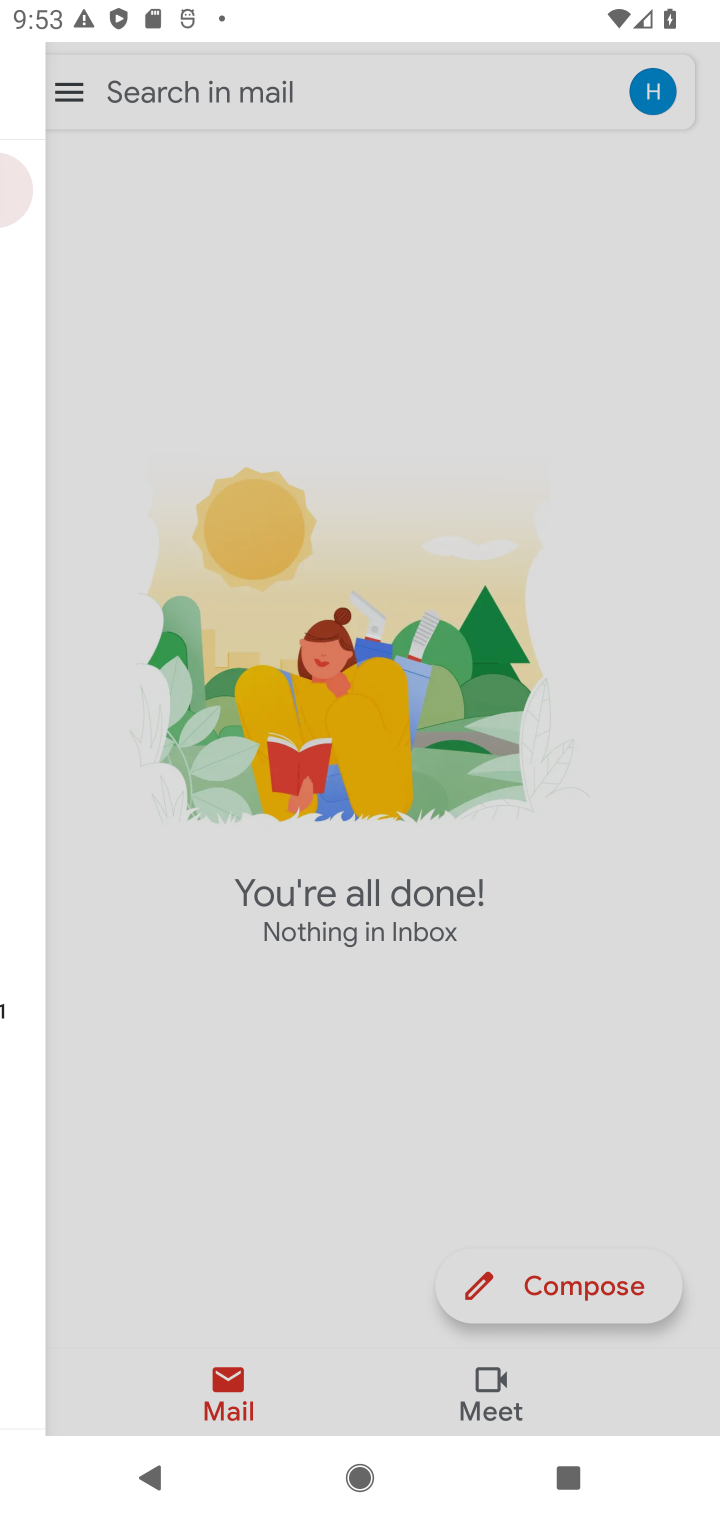
Step 36: click (609, 701)
Your task to perform on an android device: make emails show in primary in the gmail app Image 37: 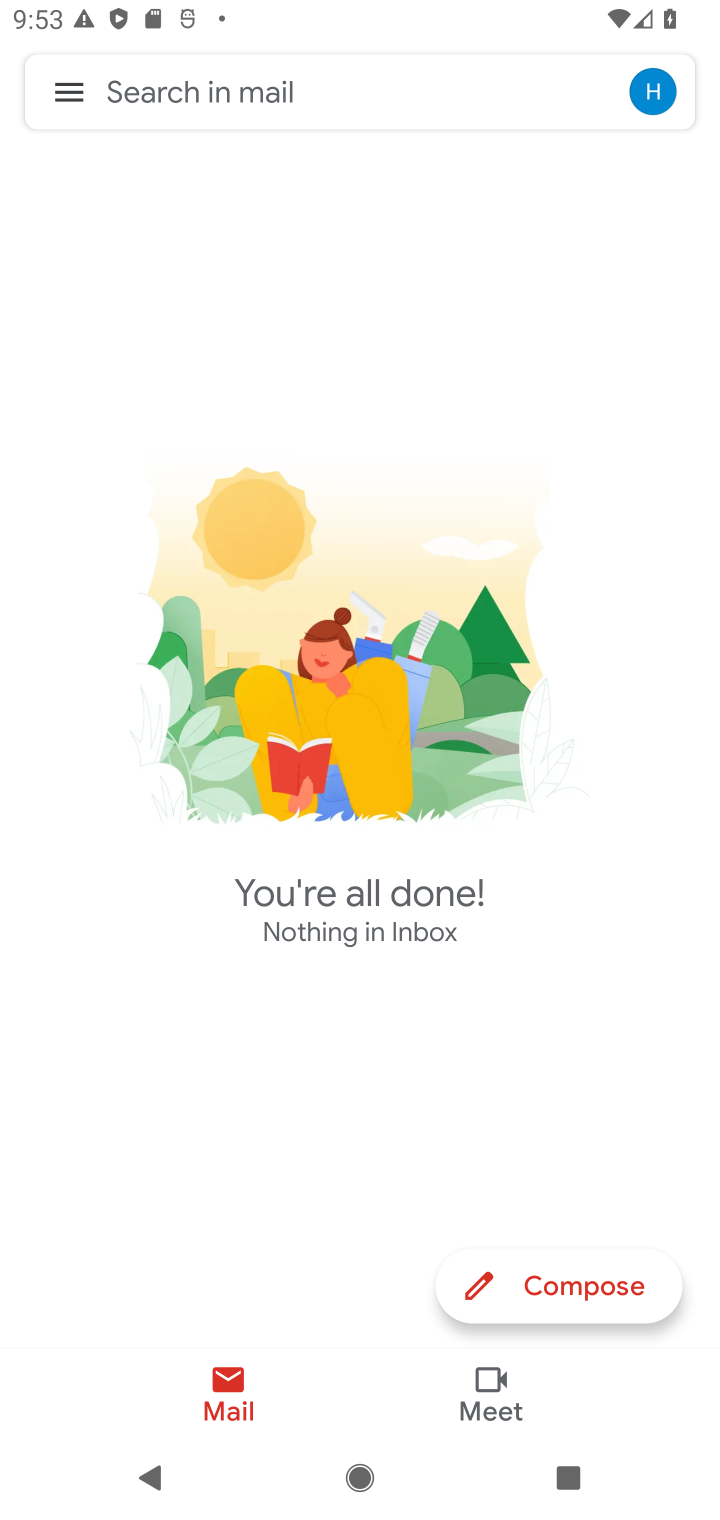
Step 37: task complete